Your task to perform on an android device: Search for flights from NYC to Sydney Image 0: 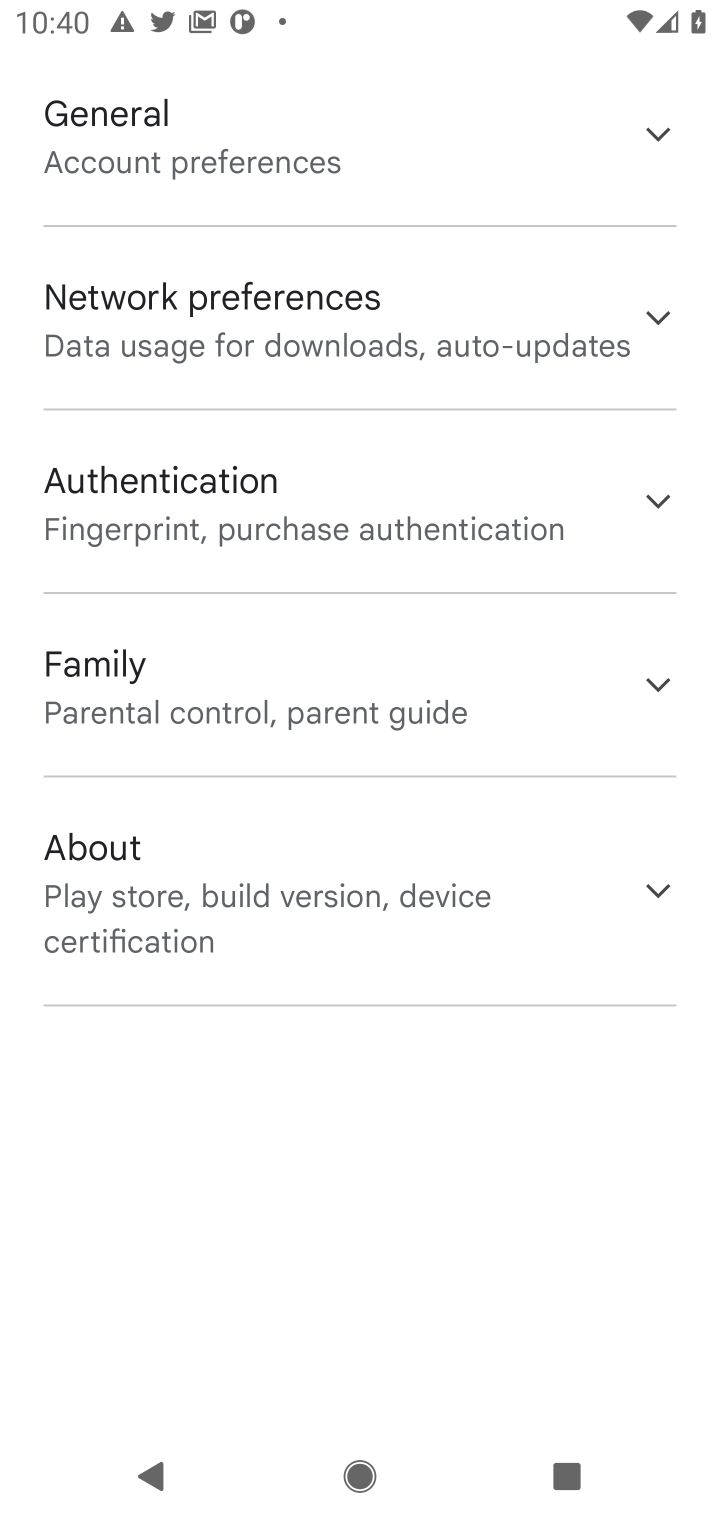
Step 0: press home button
Your task to perform on an android device: Search for flights from NYC to Sydney Image 1: 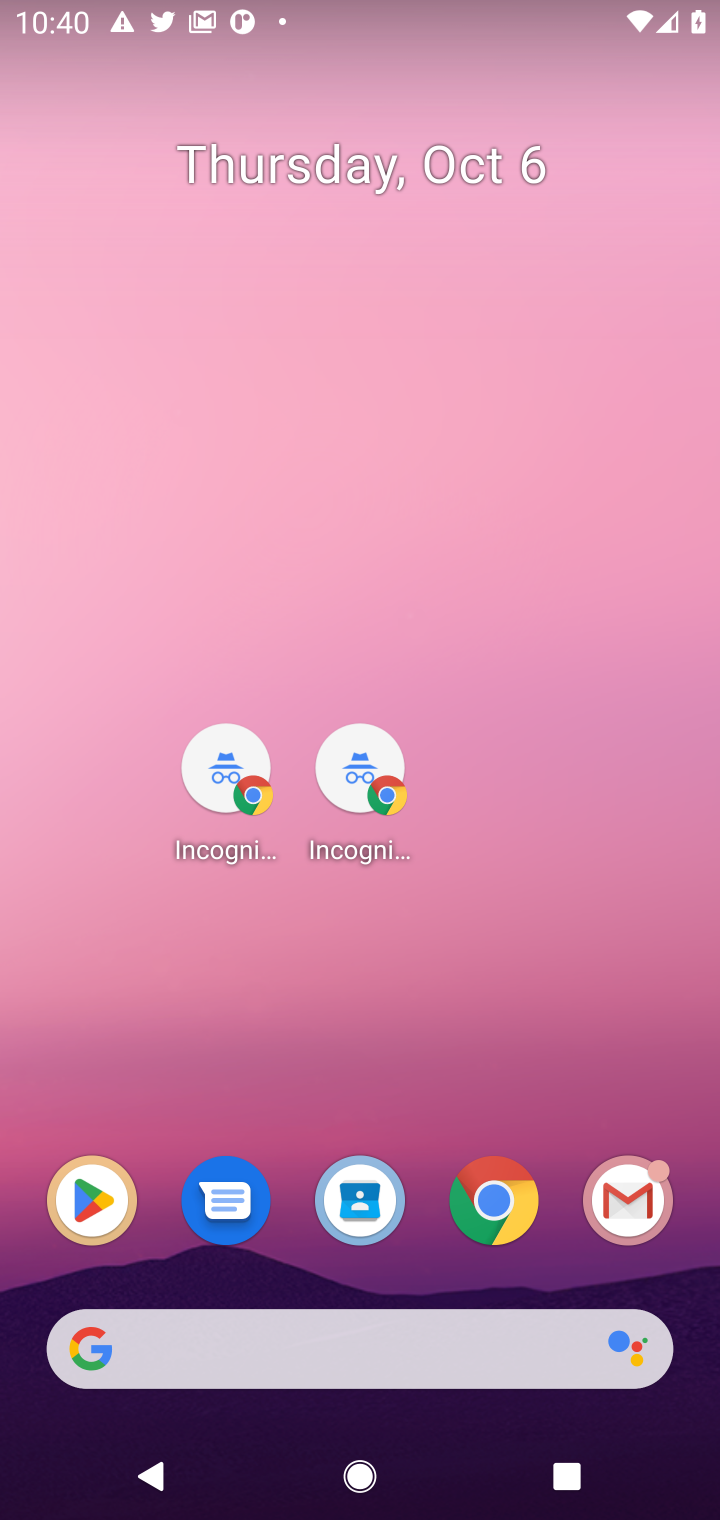
Step 1: click (492, 1195)
Your task to perform on an android device: Search for flights from NYC to Sydney Image 2: 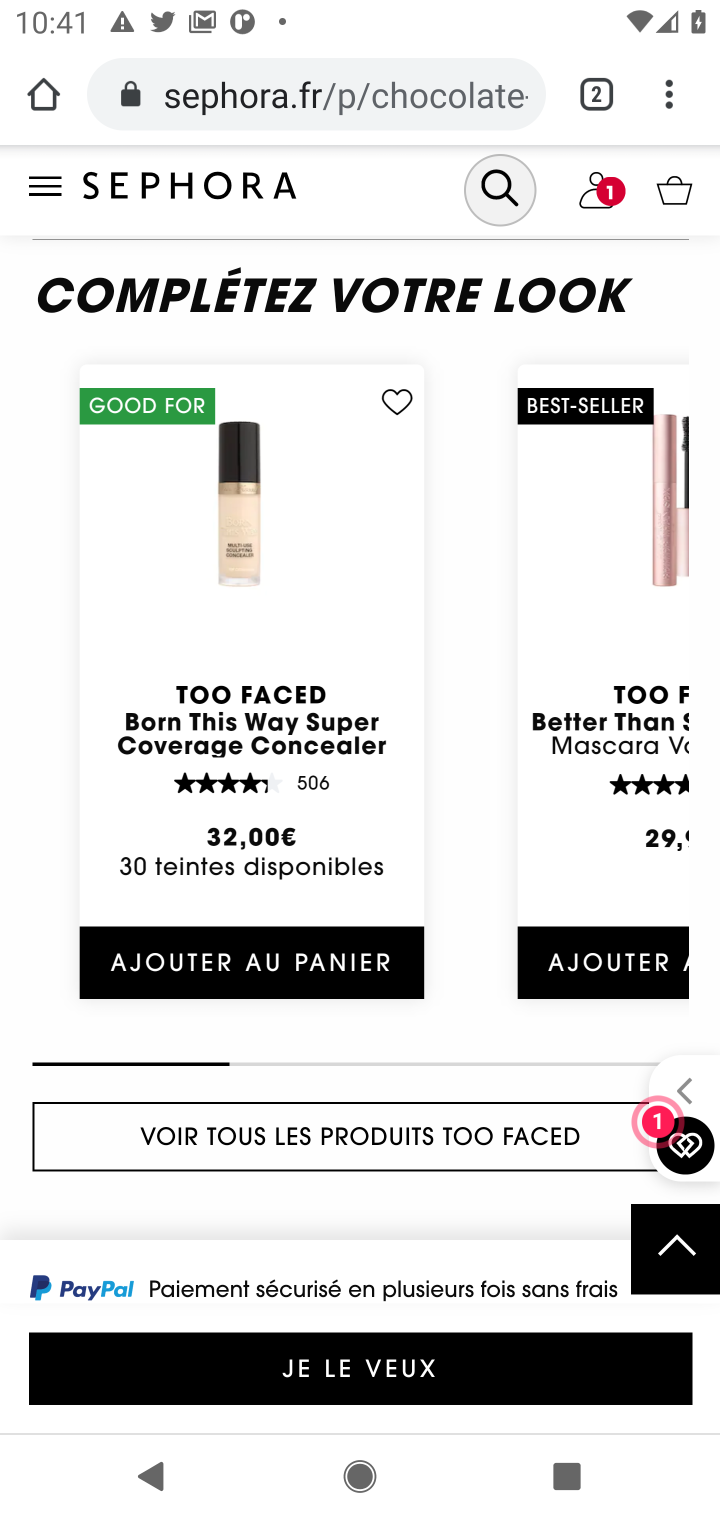
Step 2: click (385, 73)
Your task to perform on an android device: Search for flights from NYC to Sydney Image 3: 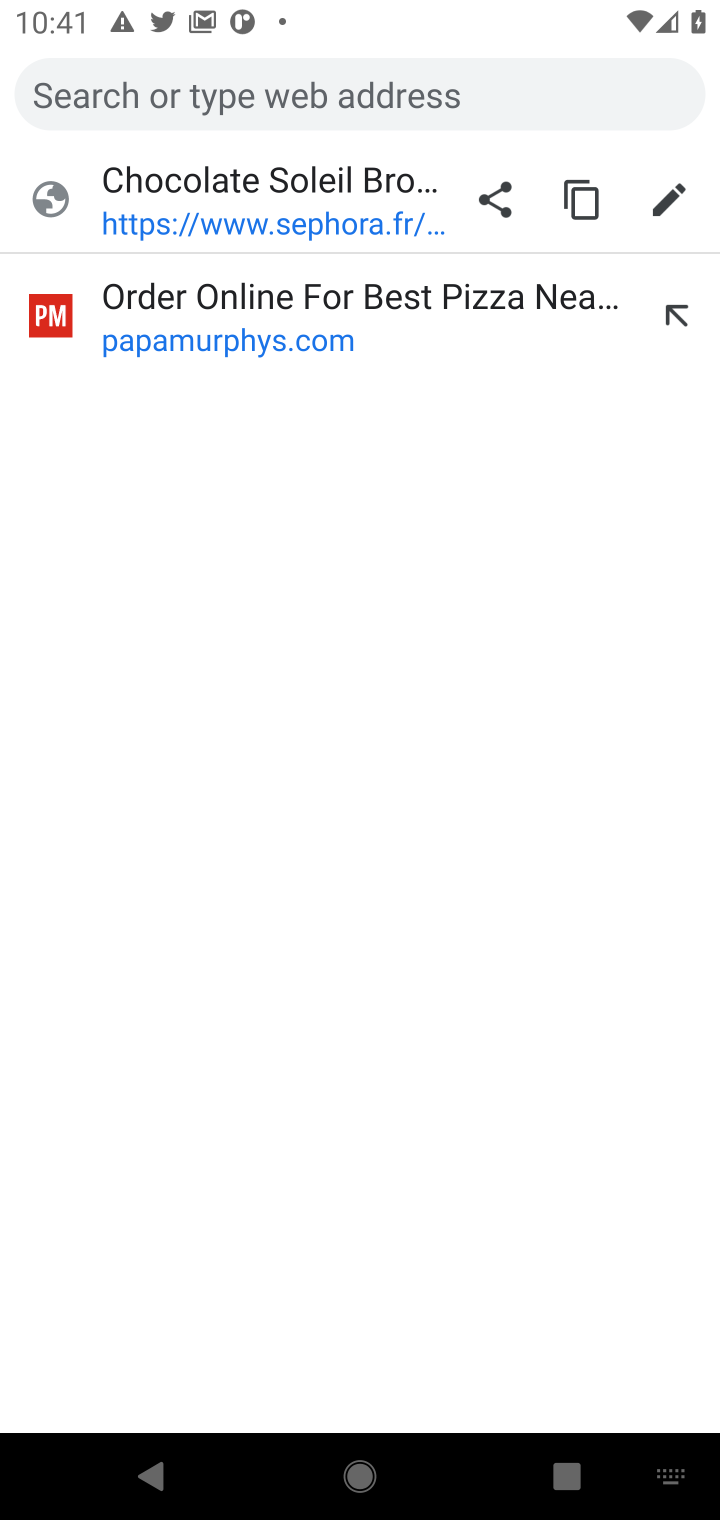
Step 3: type "flight form "
Your task to perform on an android device: Search for flights from NYC to Sydney Image 4: 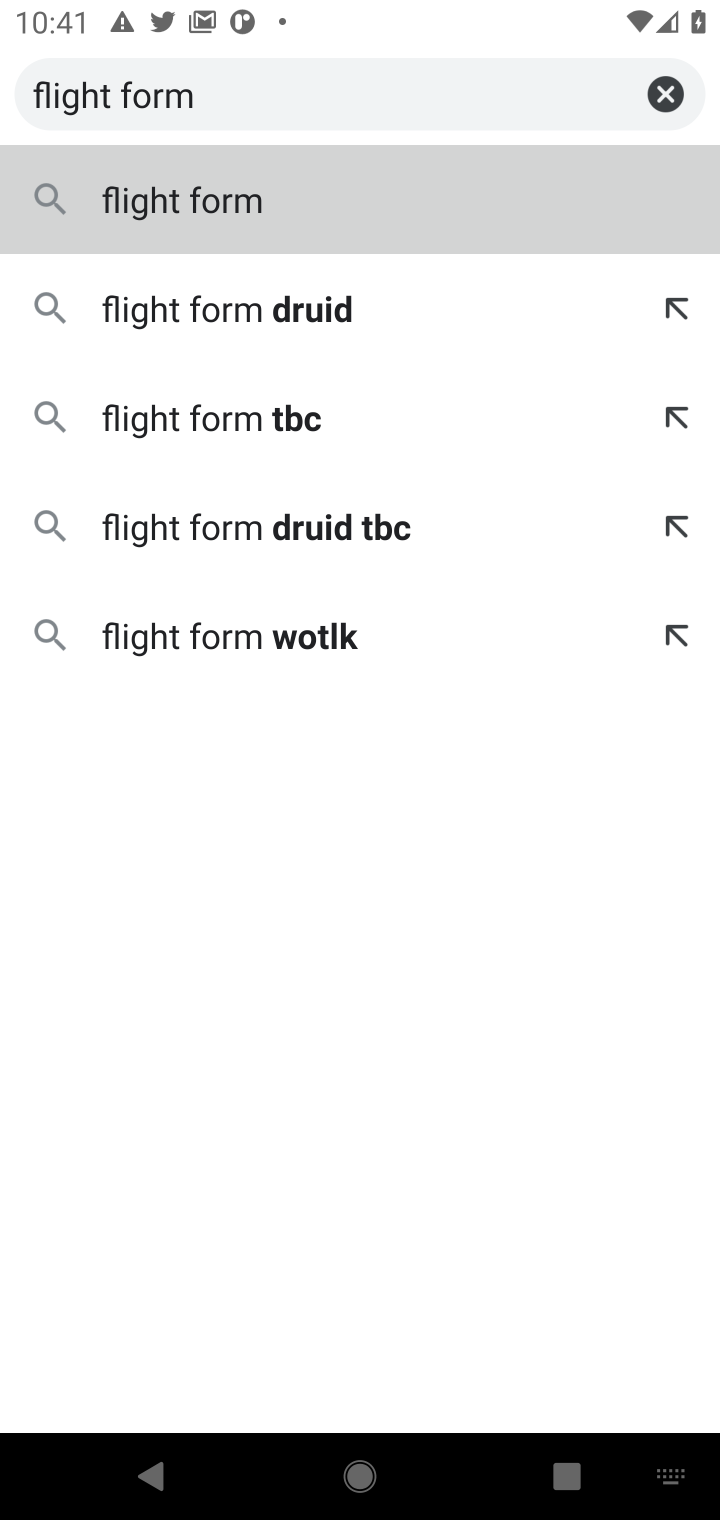
Step 4: type "flight from ny"
Your task to perform on an android device: Search for flights from NYC to Sydney Image 5: 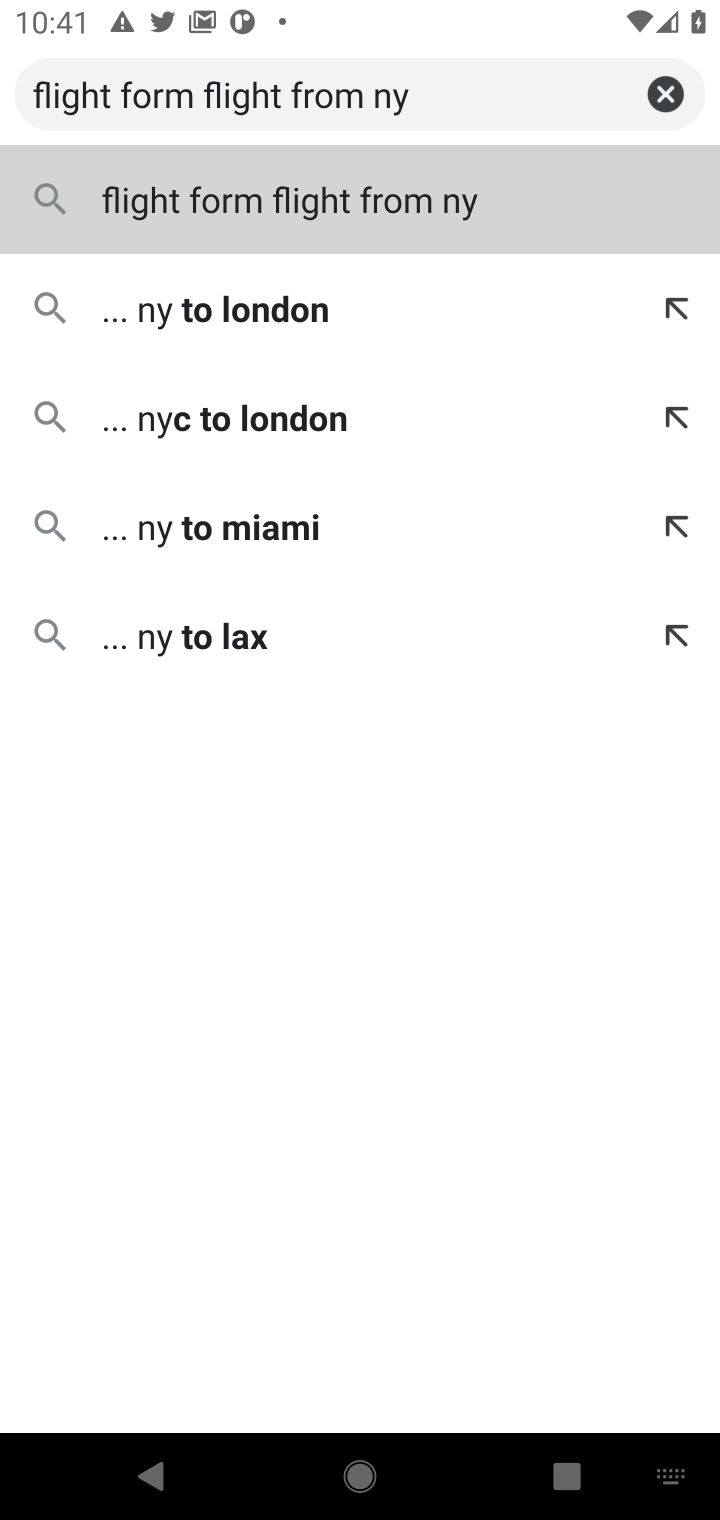
Step 5: type "flight from nyc to sydney"
Your task to perform on an android device: Search for flights from NYC to Sydney Image 6: 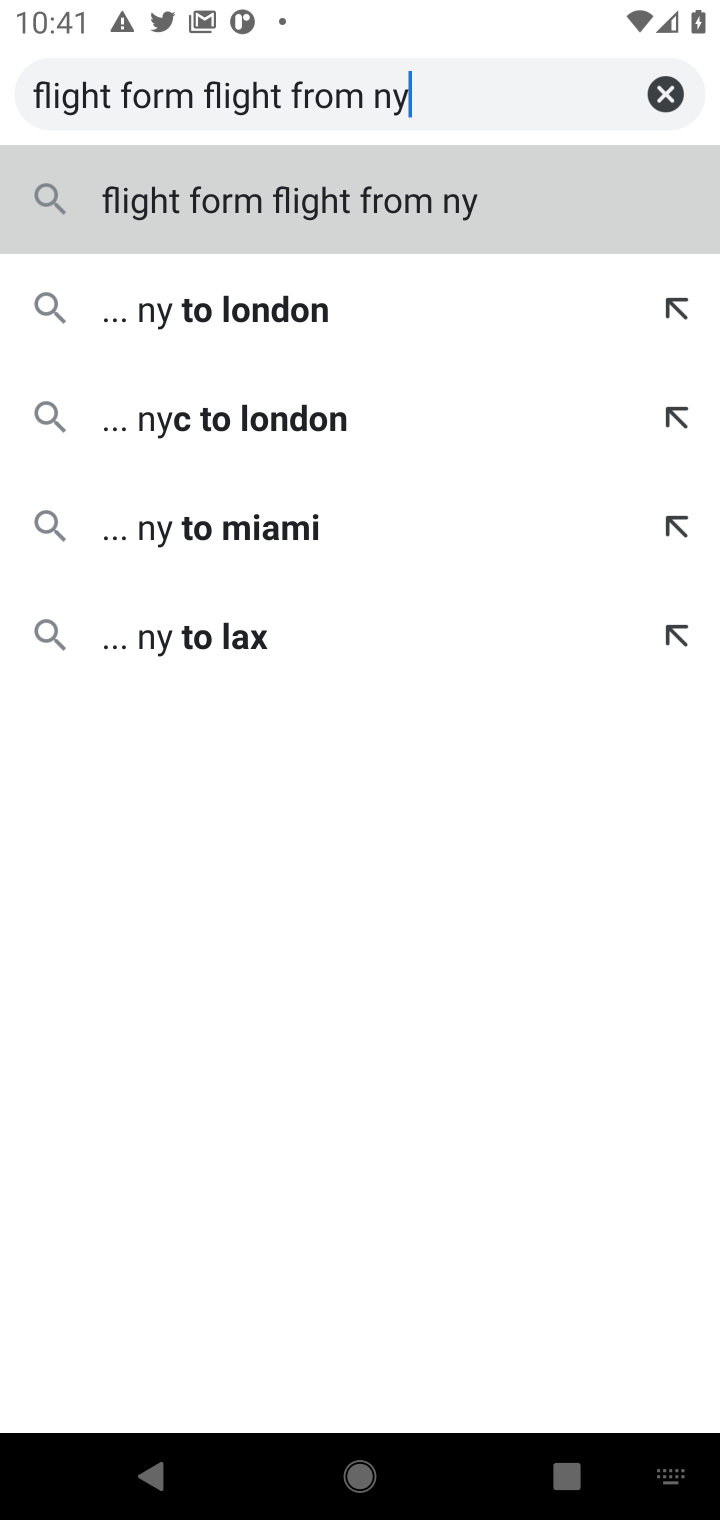
Step 6: click (665, 95)
Your task to perform on an android device: Search for flights from NYC to Sydney Image 7: 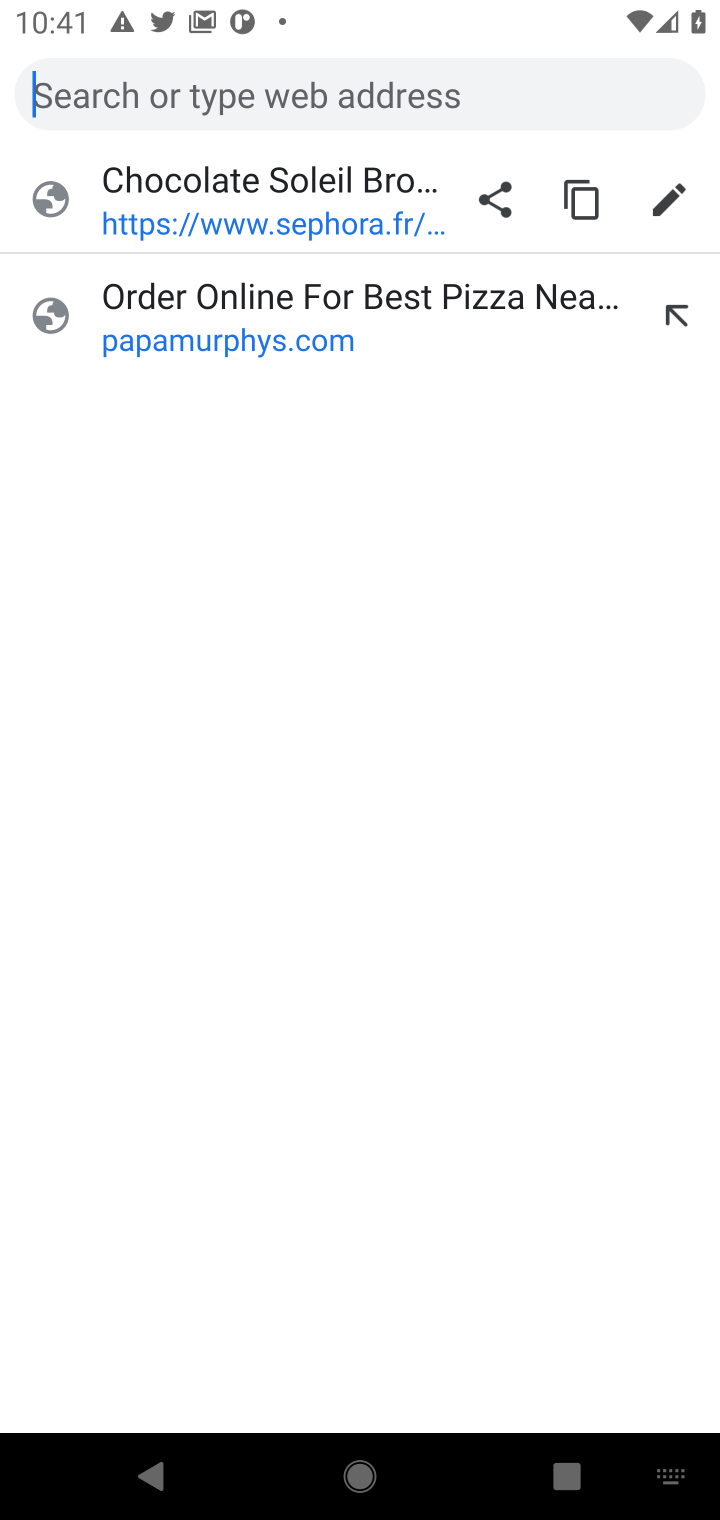
Step 7: click (663, 102)
Your task to perform on an android device: Search for flights from NYC to Sydney Image 8: 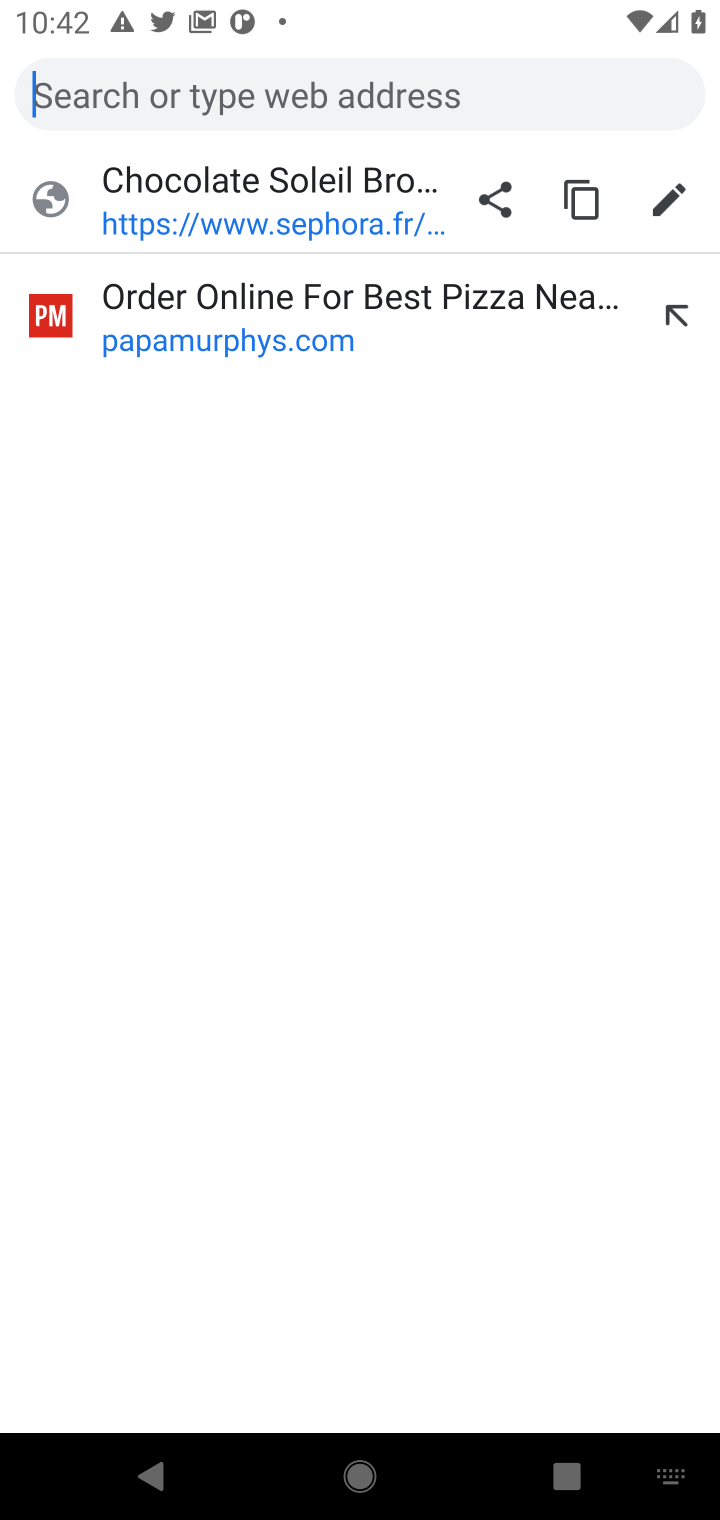
Step 8: type "flight from NYC to sydney "
Your task to perform on an android device: Search for flights from NYC to Sydney Image 9: 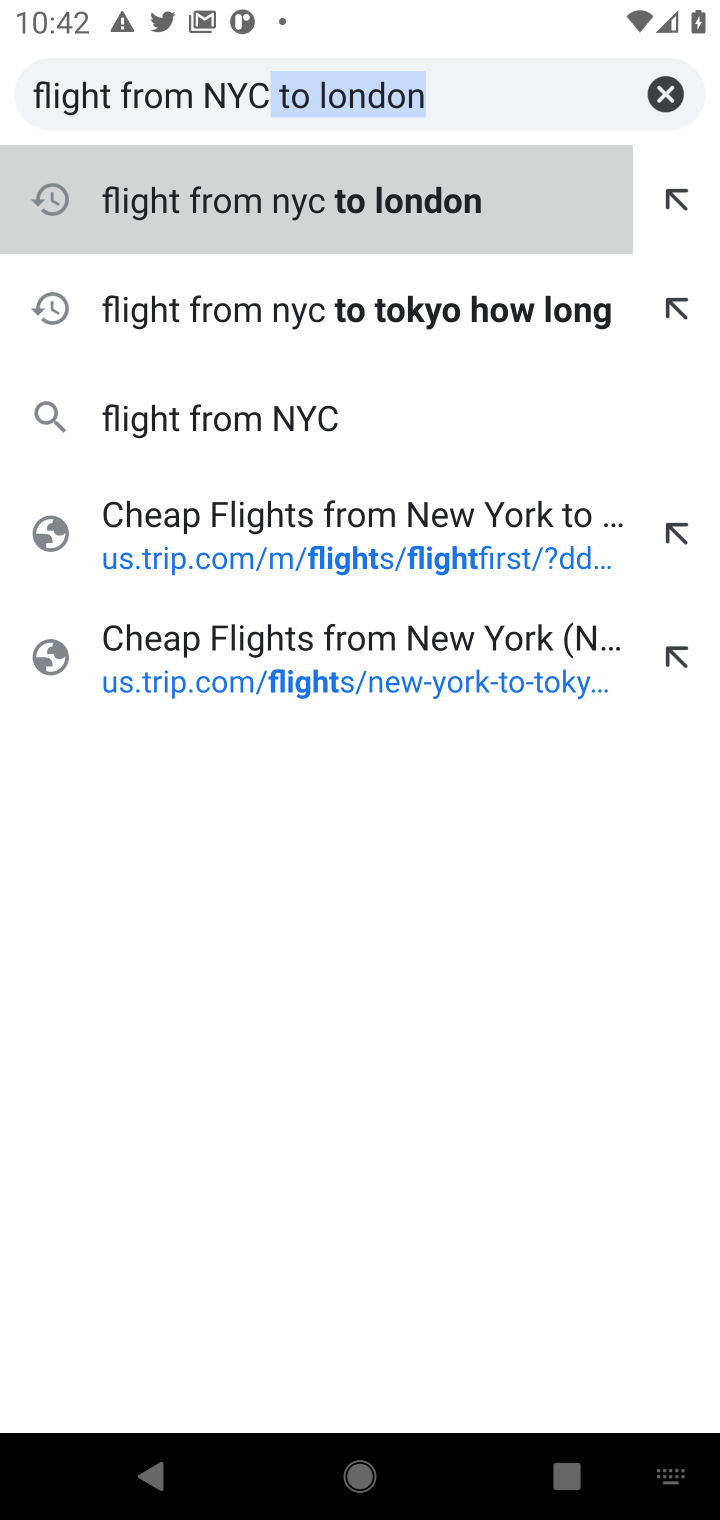
Step 9: type ""
Your task to perform on an android device: Search for flights from NYC to Sydney Image 10: 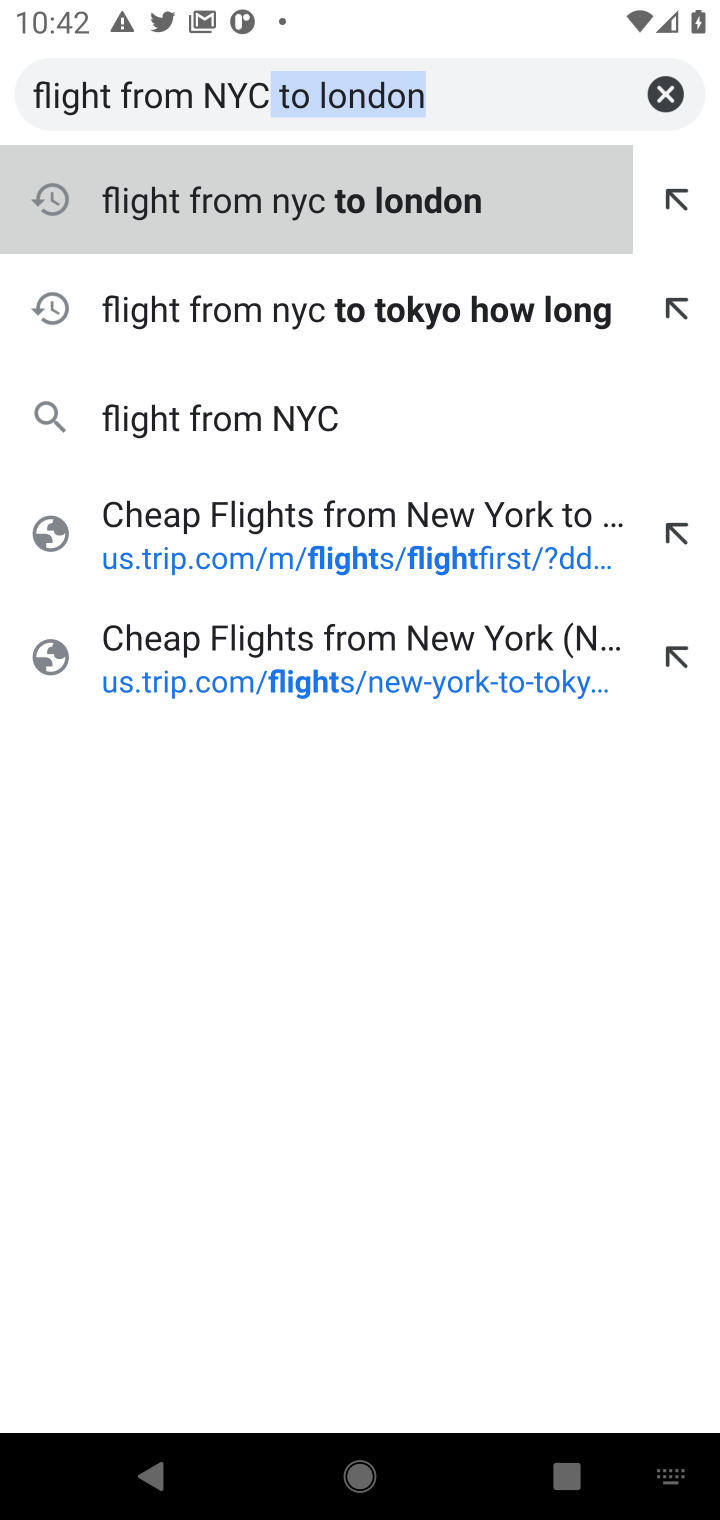
Step 10: click (324, 232)
Your task to perform on an android device: Search for flights from NYC to Sydney Image 11: 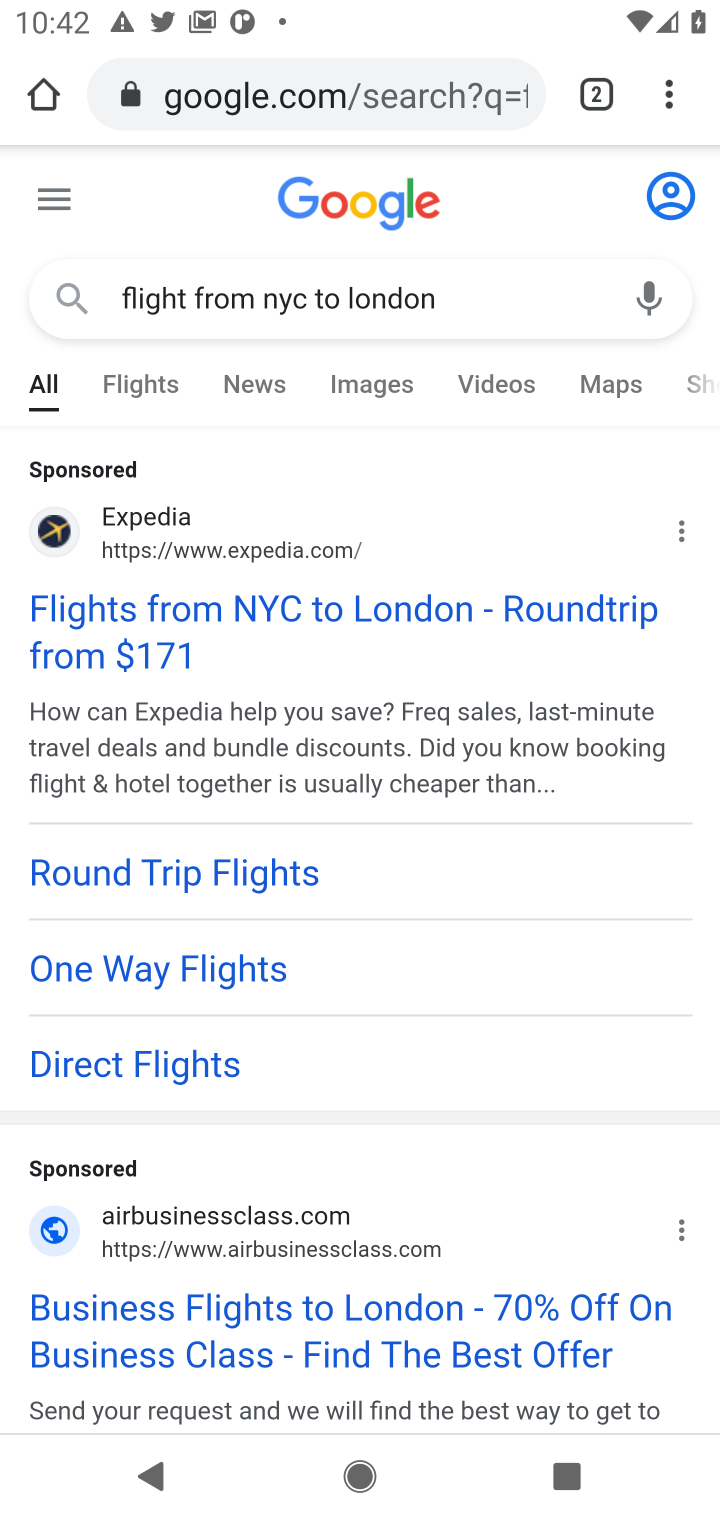
Step 11: click (103, 870)
Your task to perform on an android device: Search for flights from NYC to Sydney Image 12: 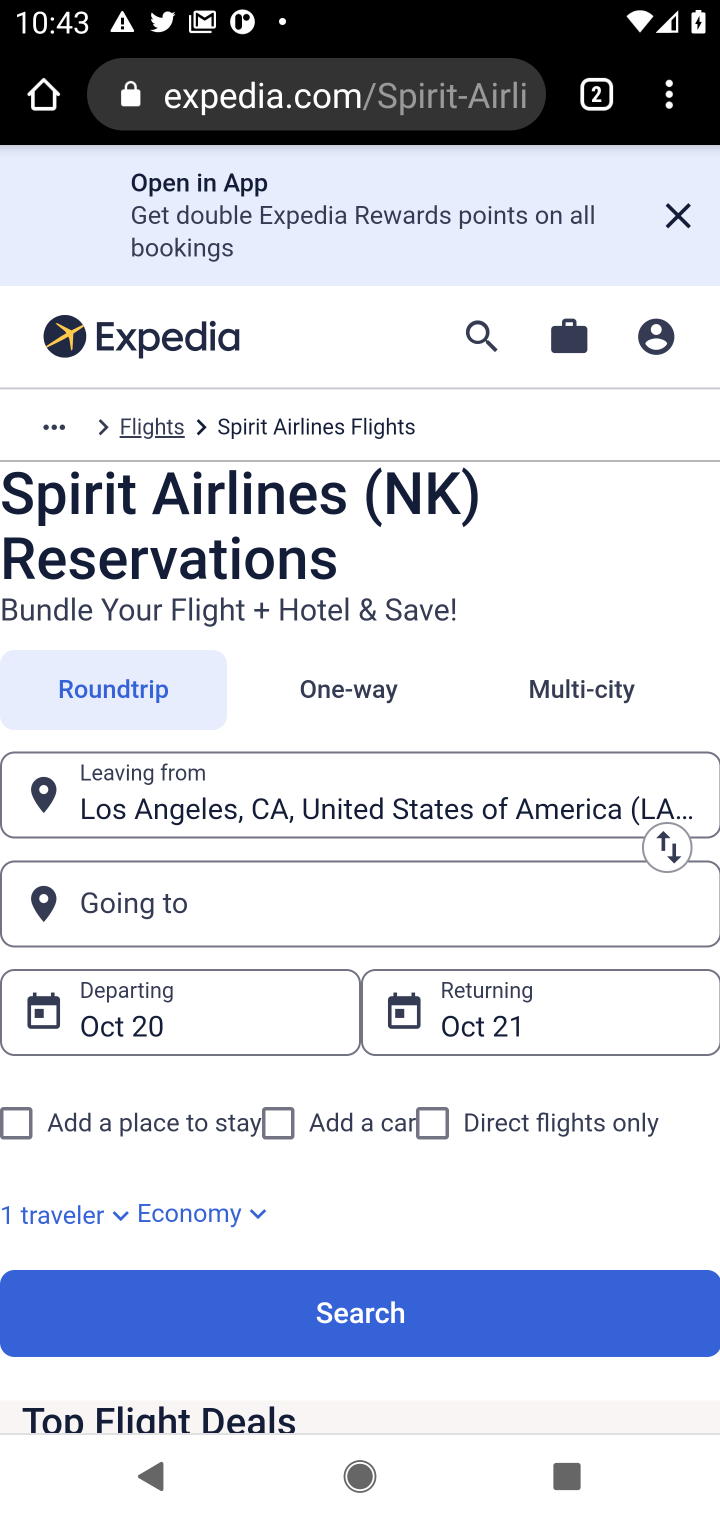
Step 12: click (269, 808)
Your task to perform on an android device: Search for flights from NYC to Sydney Image 13: 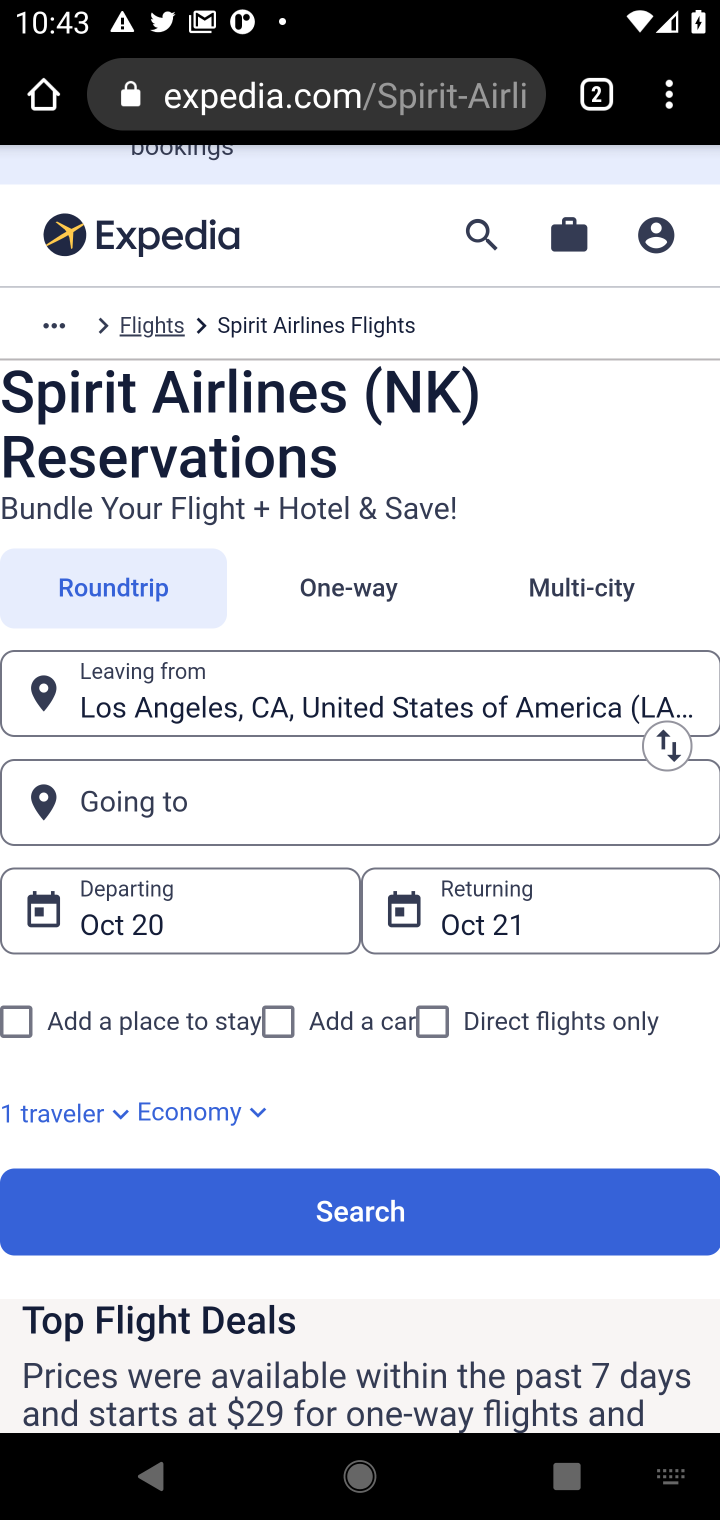
Step 13: click (485, 709)
Your task to perform on an android device: Search for flights from NYC to Sydney Image 14: 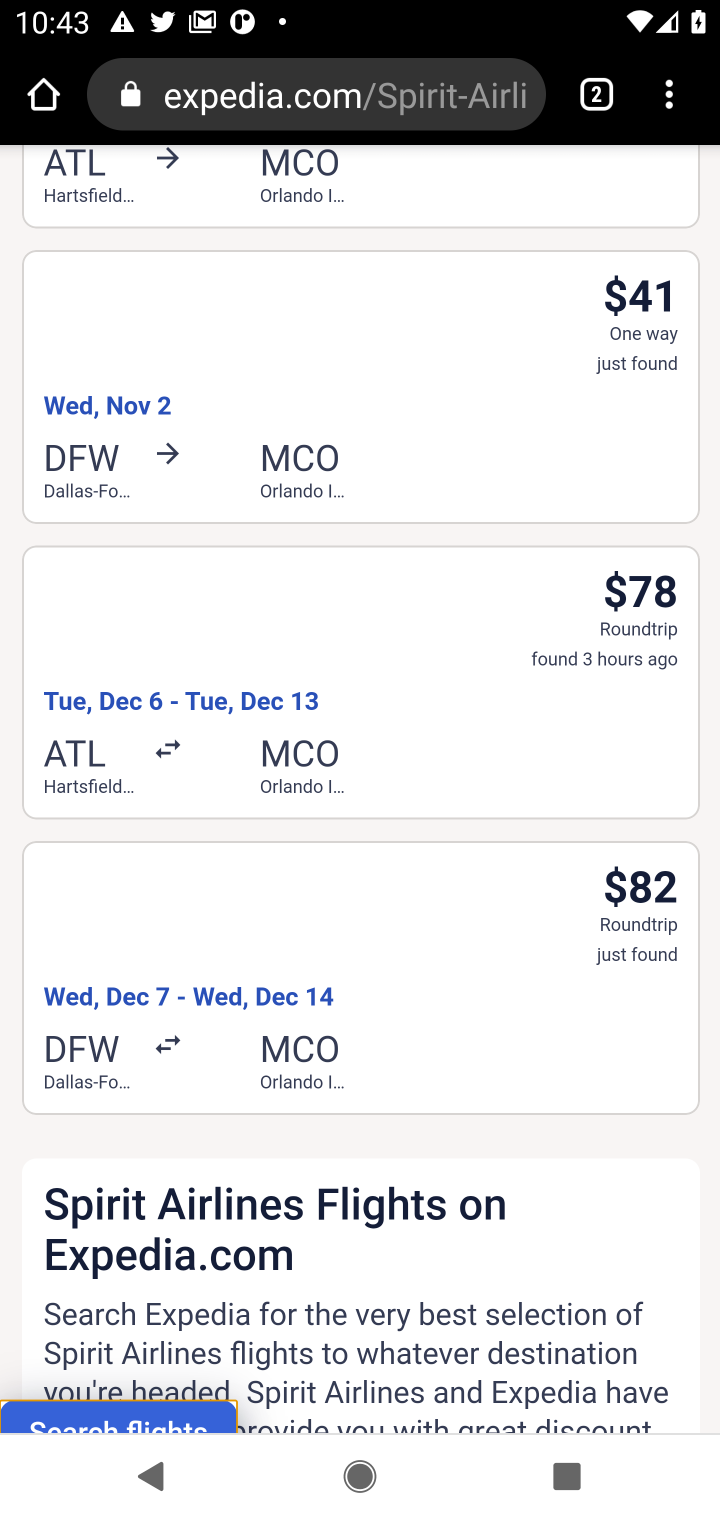
Step 14: drag from (441, 1067) to (529, 452)
Your task to perform on an android device: Search for flights from NYC to Sydney Image 15: 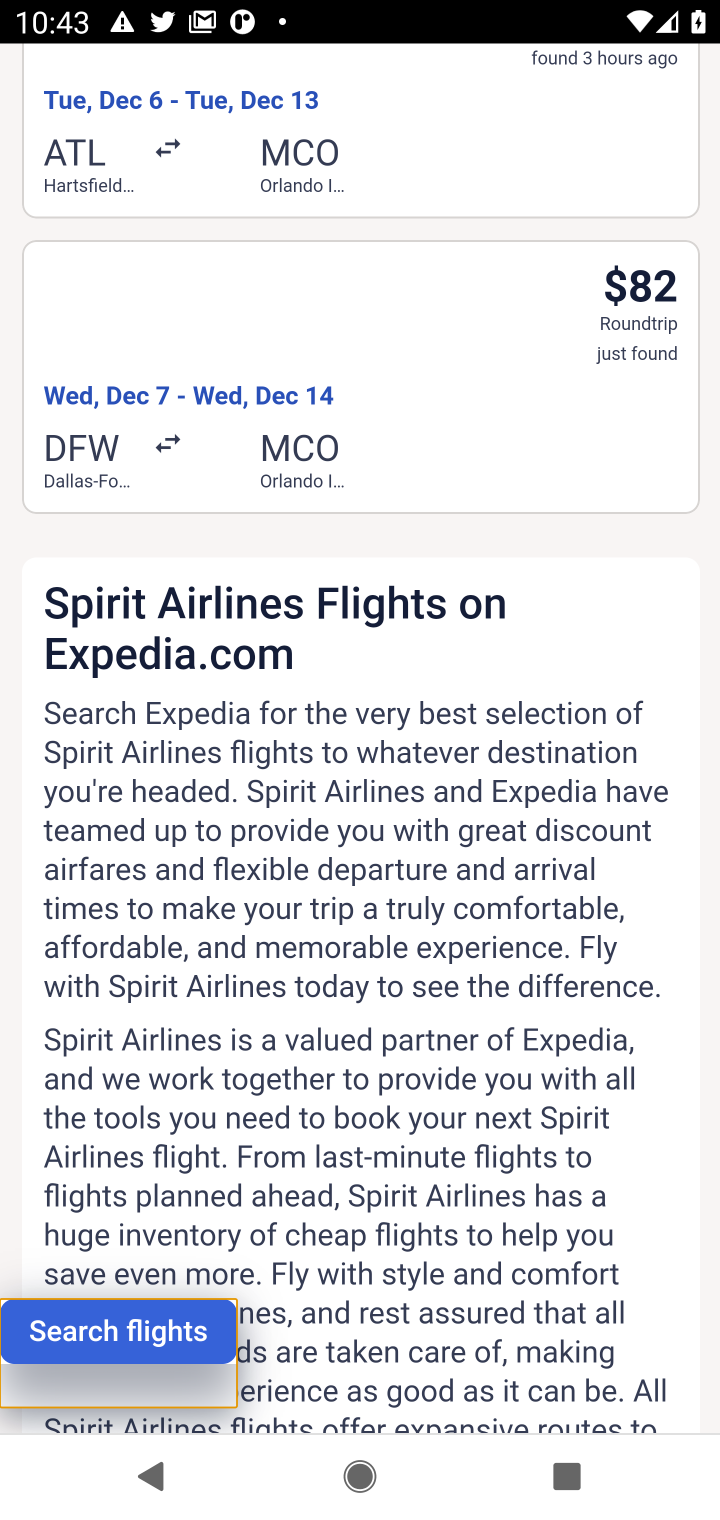
Step 15: drag from (466, 401) to (501, 1137)
Your task to perform on an android device: Search for flights from NYC to Sydney Image 16: 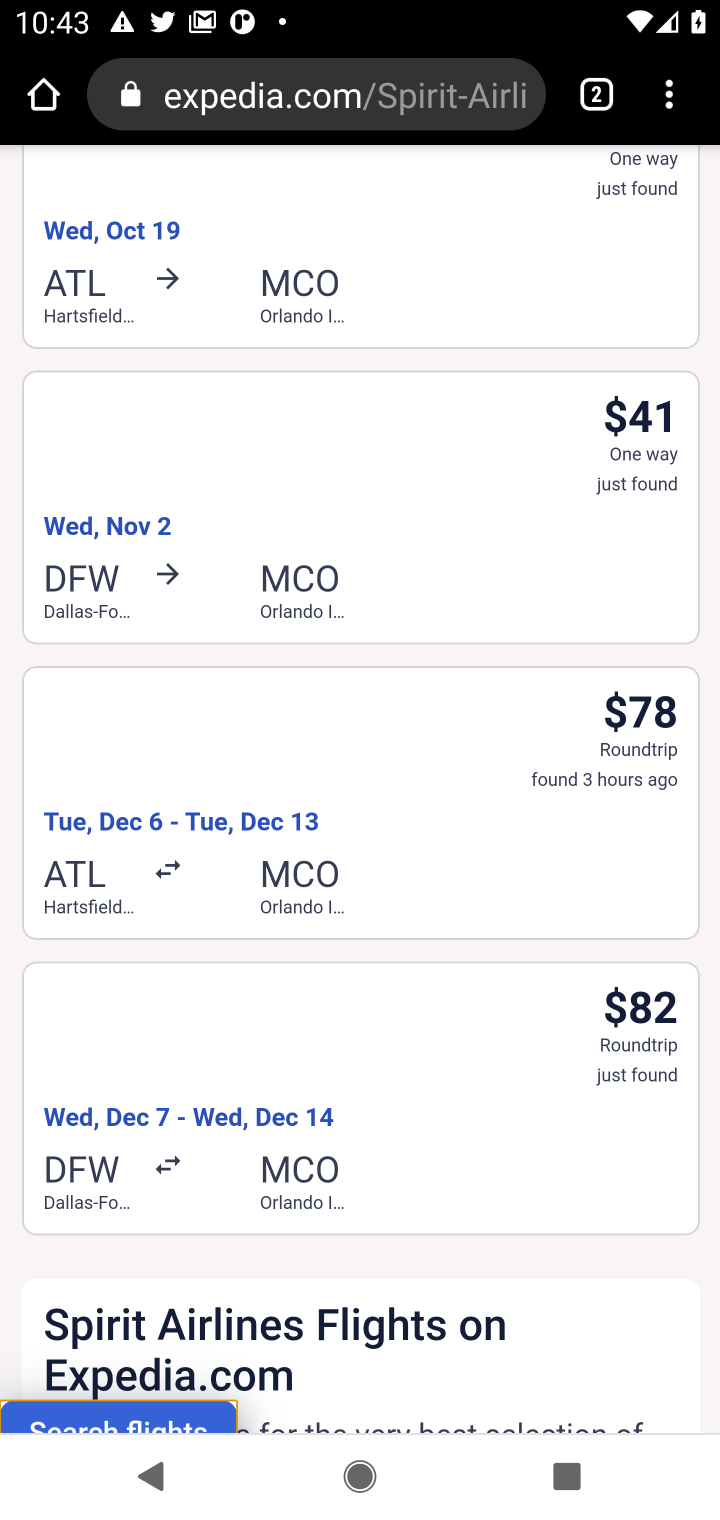
Step 16: click (117, 1424)
Your task to perform on an android device: Search for flights from NYC to Sydney Image 17: 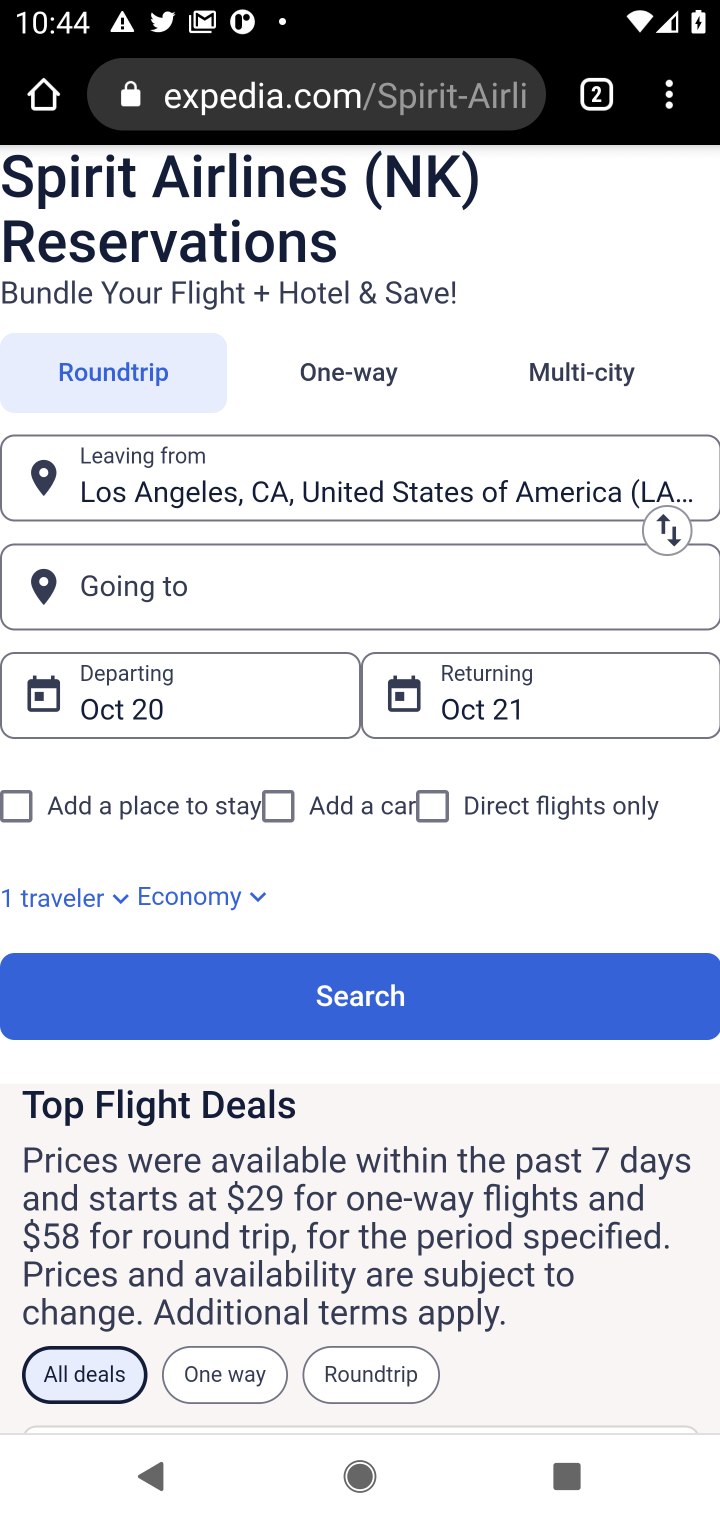
Step 17: click (274, 490)
Your task to perform on an android device: Search for flights from NYC to Sydney Image 18: 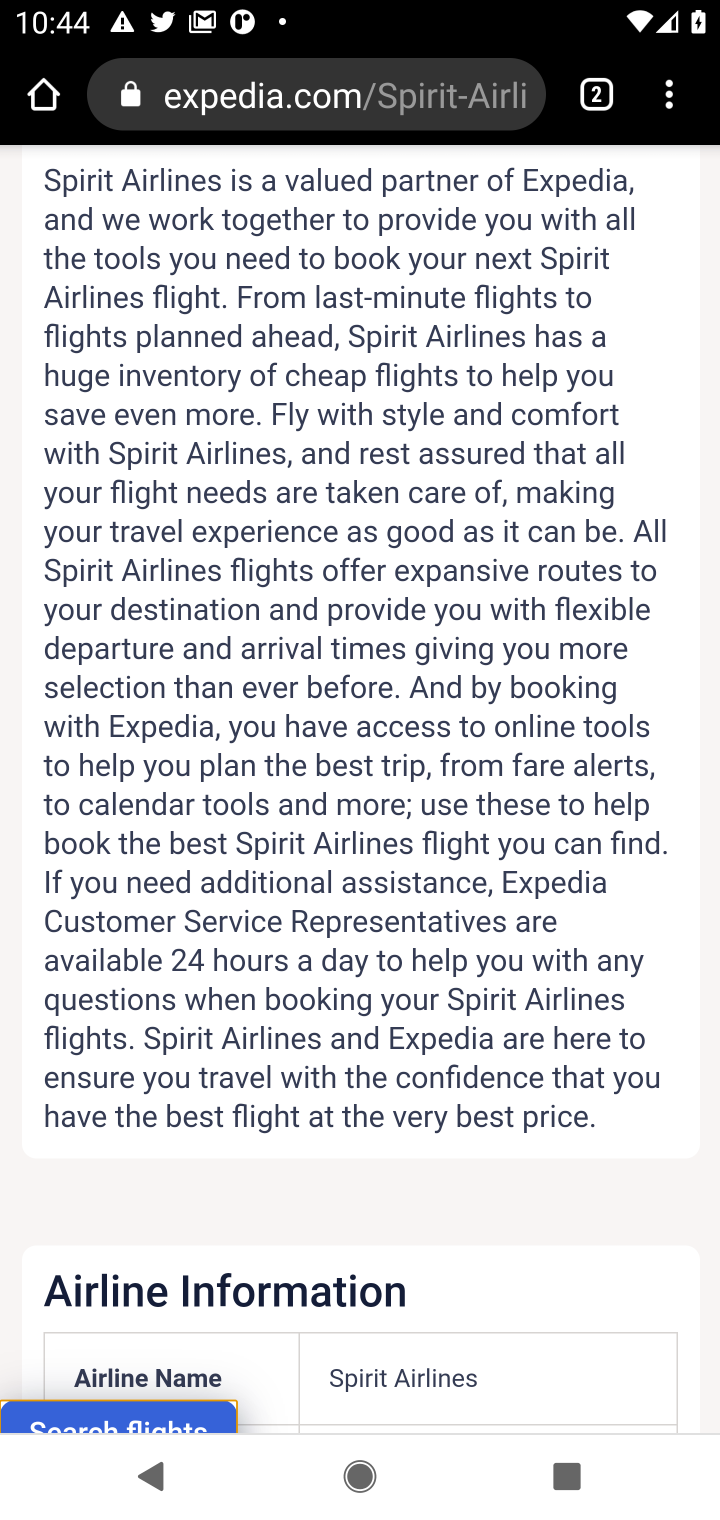
Step 18: drag from (428, 1097) to (426, 459)
Your task to perform on an android device: Search for flights from NYC to Sydney Image 19: 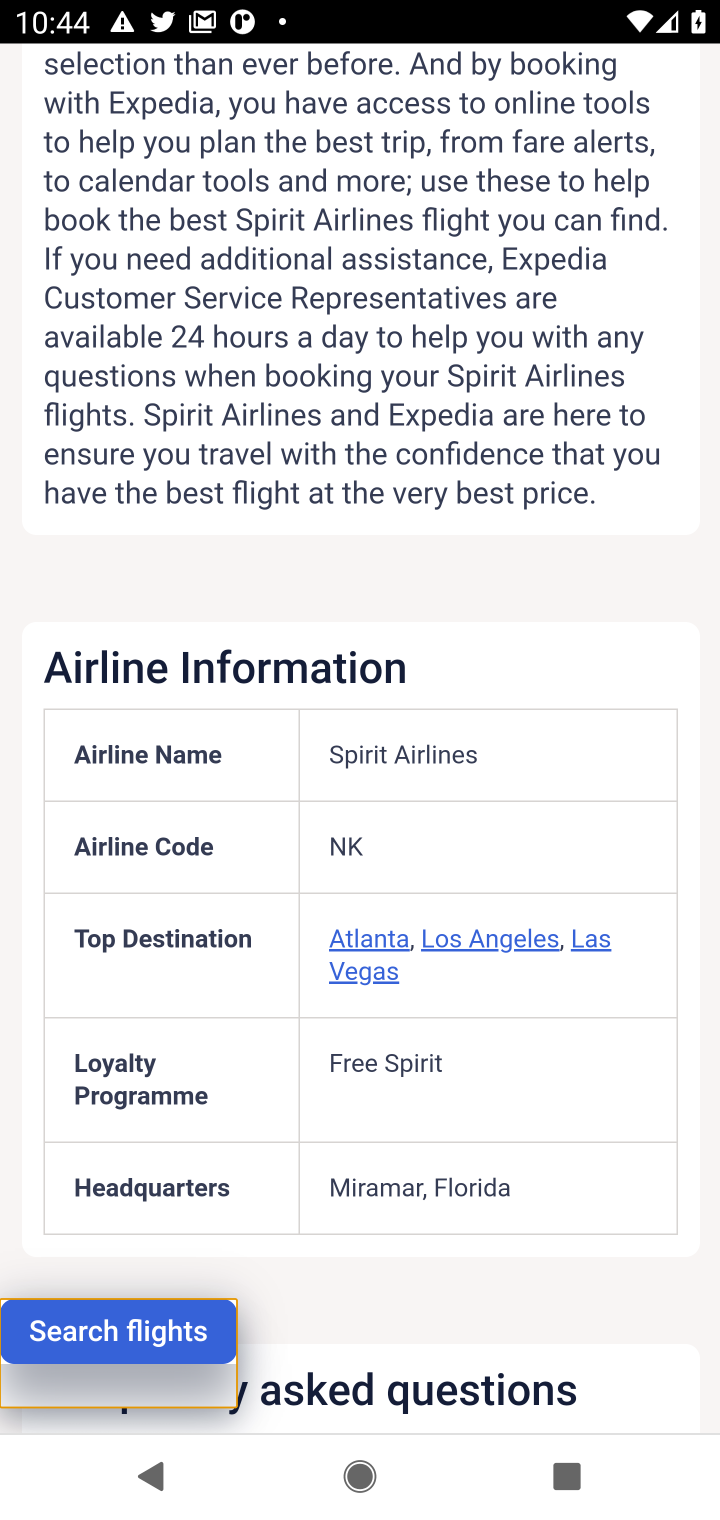
Step 19: drag from (393, 1066) to (404, 621)
Your task to perform on an android device: Search for flights from NYC to Sydney Image 20: 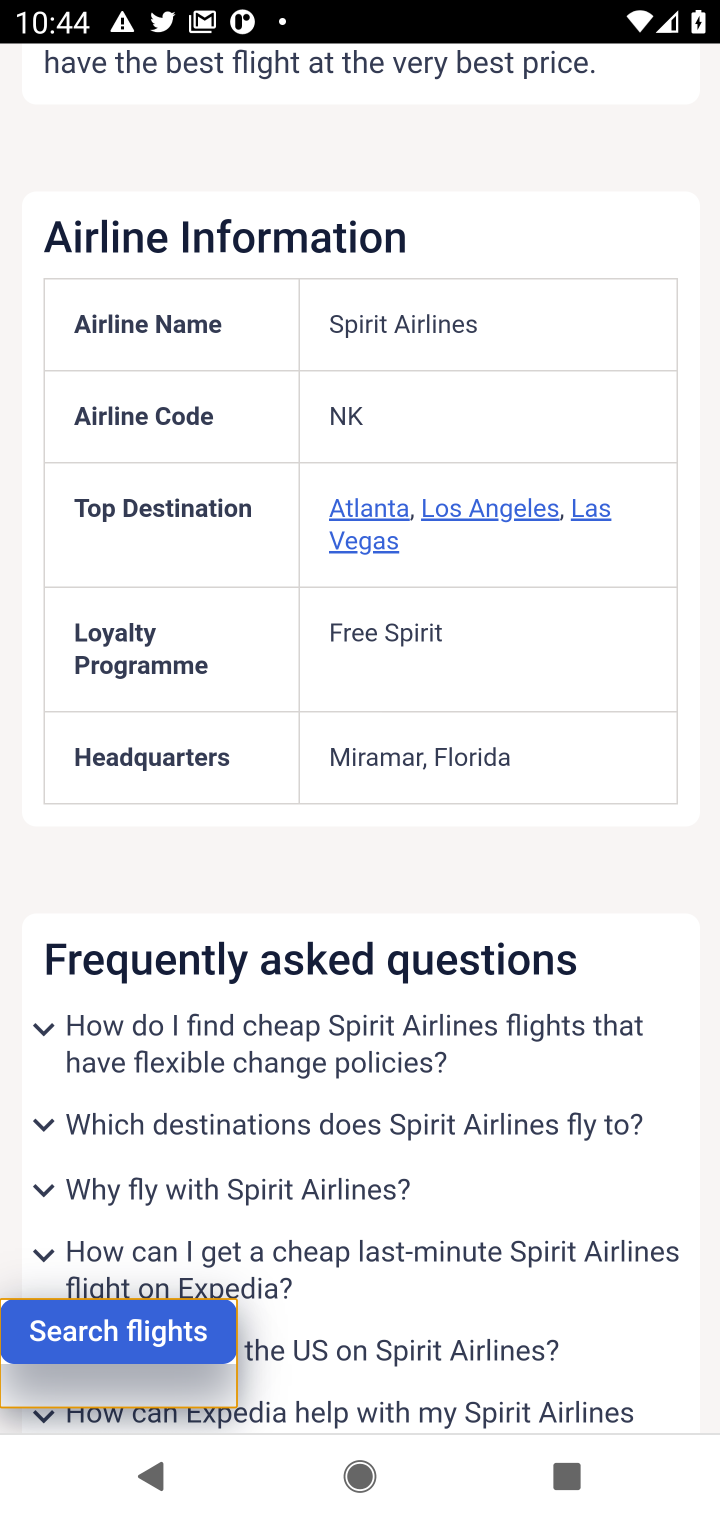
Step 20: click (91, 1341)
Your task to perform on an android device: Search for flights from NYC to Sydney Image 21: 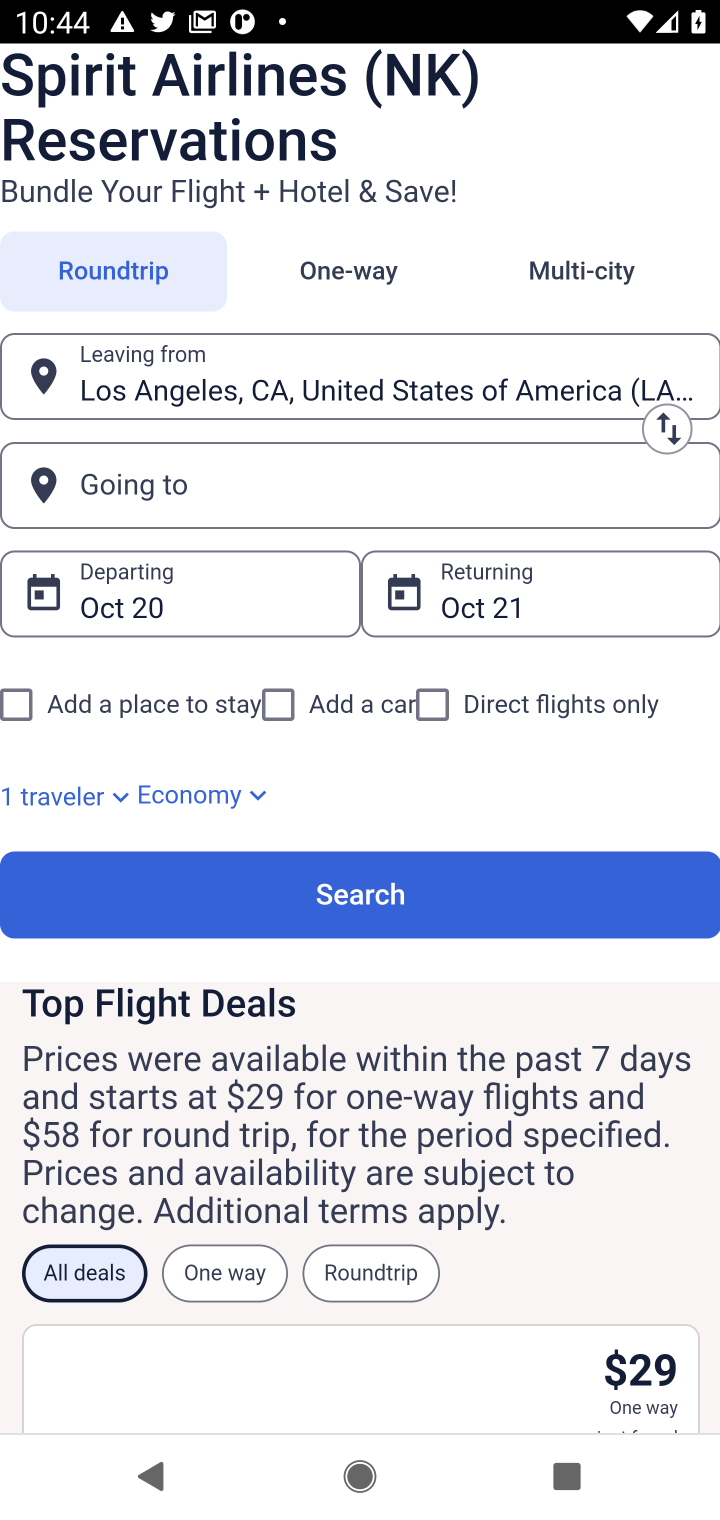
Step 21: click (133, 490)
Your task to perform on an android device: Search for flights from NYC to Sydney Image 22: 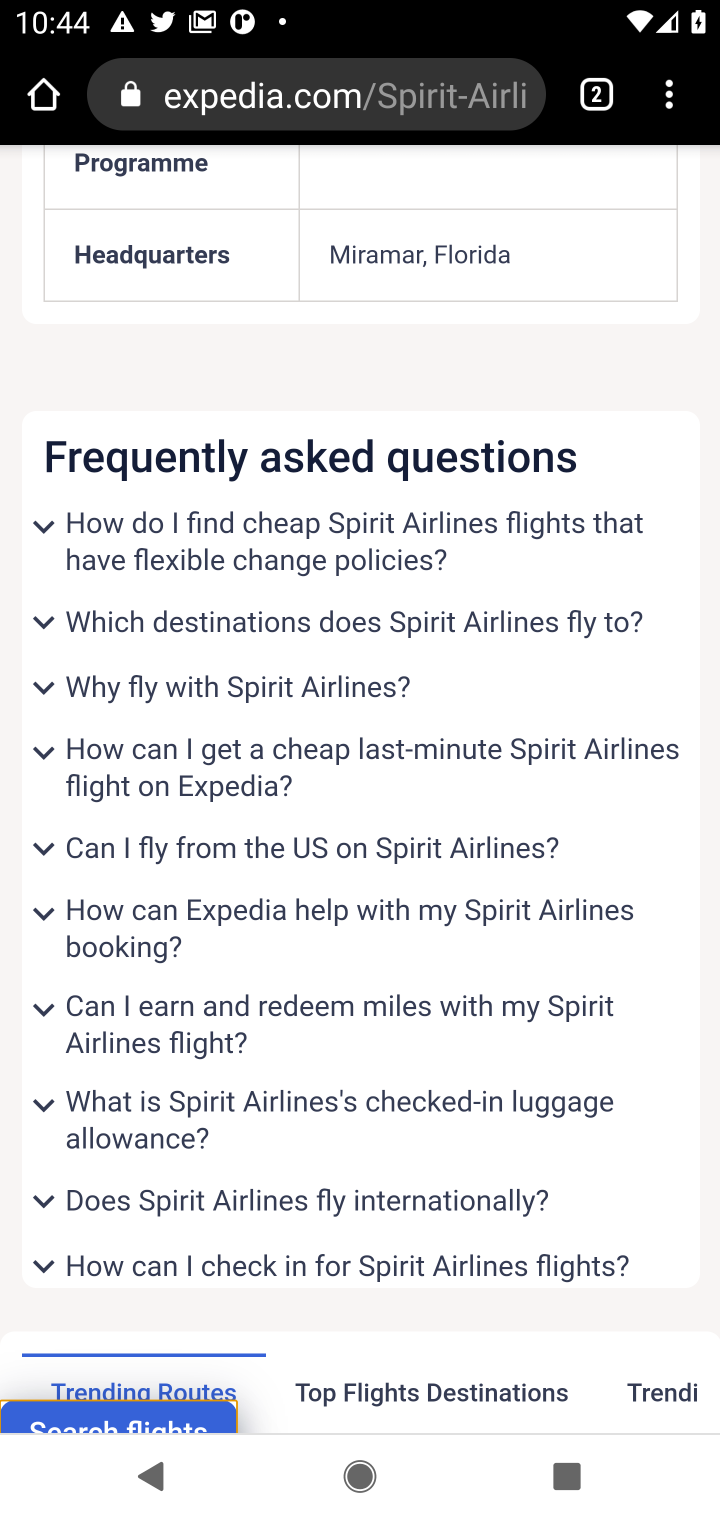
Step 22: drag from (415, 396) to (473, 1268)
Your task to perform on an android device: Search for flights from NYC to Sydney Image 23: 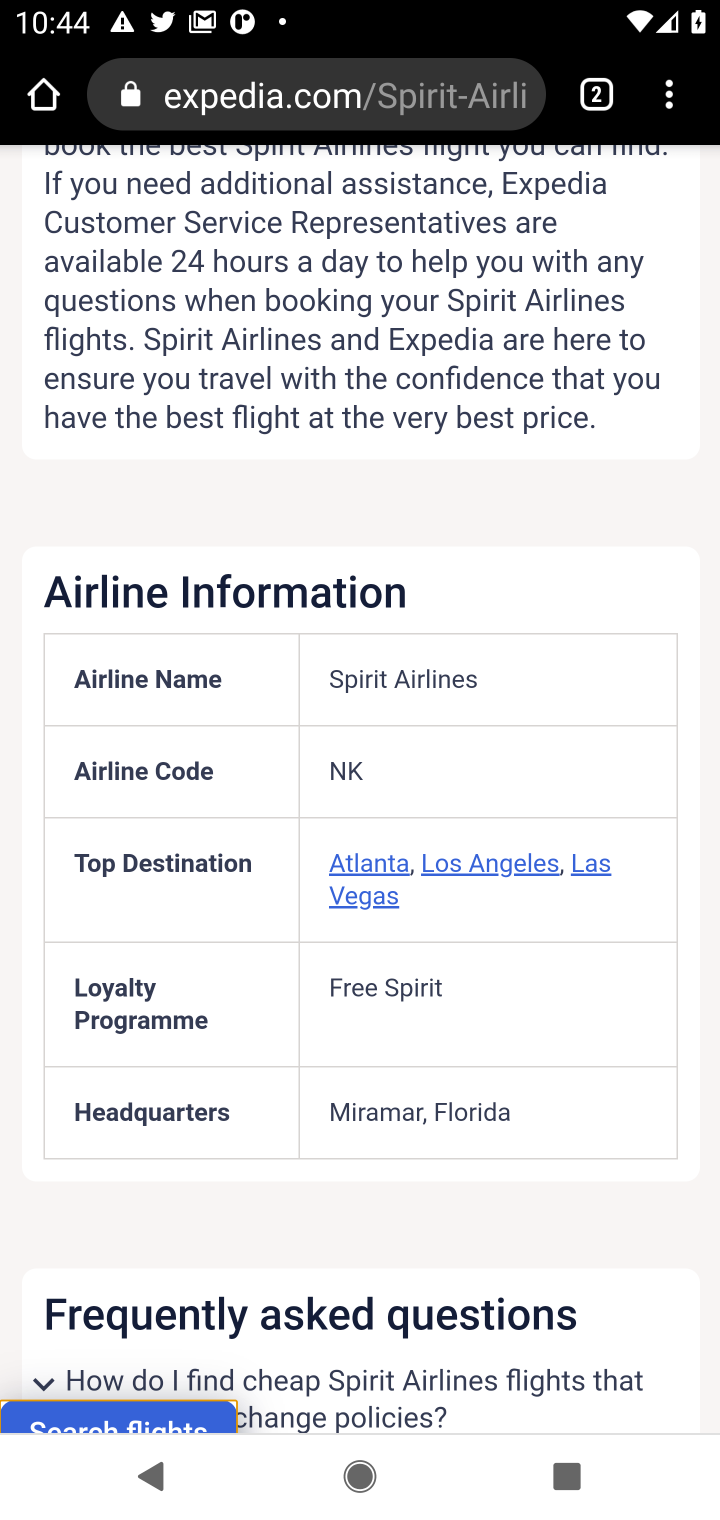
Step 23: drag from (249, 746) to (318, 1395)
Your task to perform on an android device: Search for flights from NYC to Sydney Image 24: 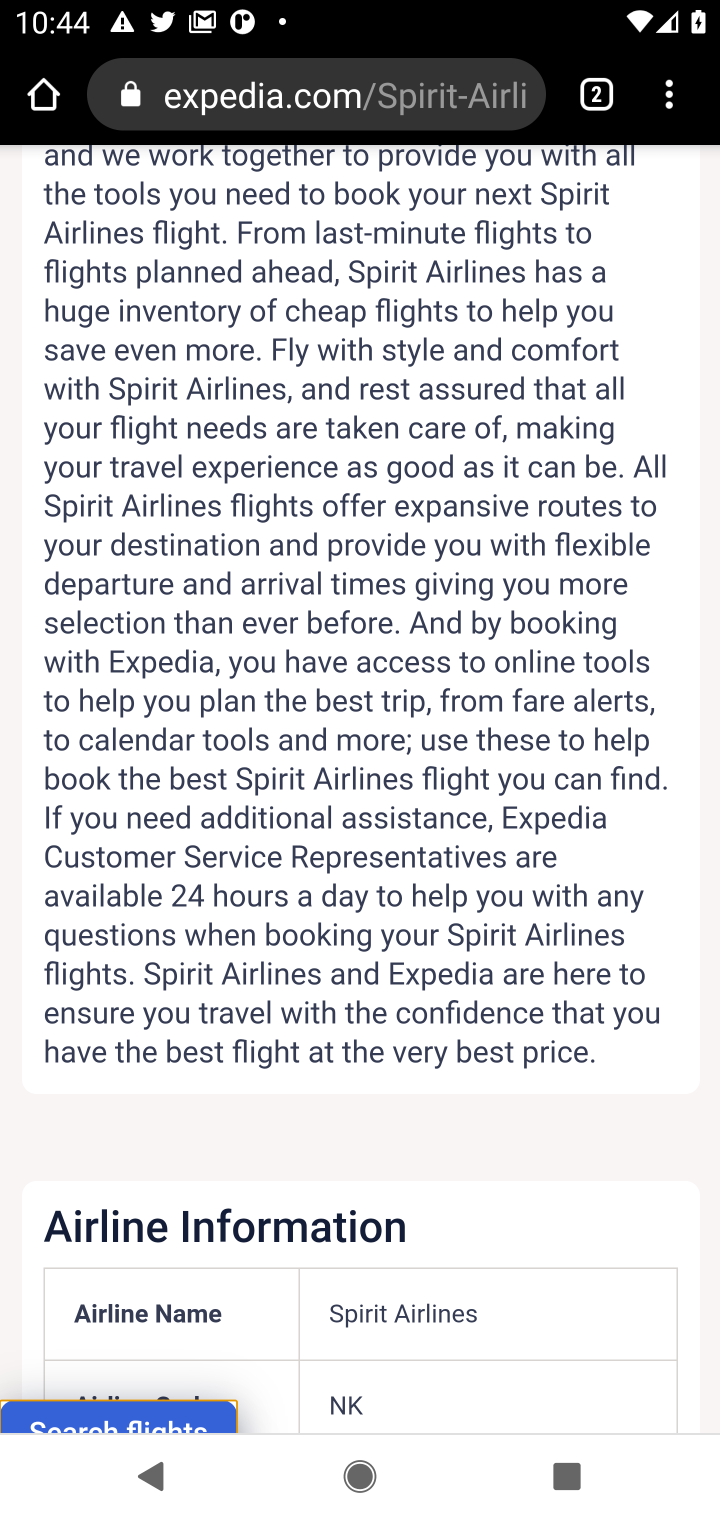
Step 24: drag from (199, 617) to (299, 1416)
Your task to perform on an android device: Search for flights from NYC to Sydney Image 25: 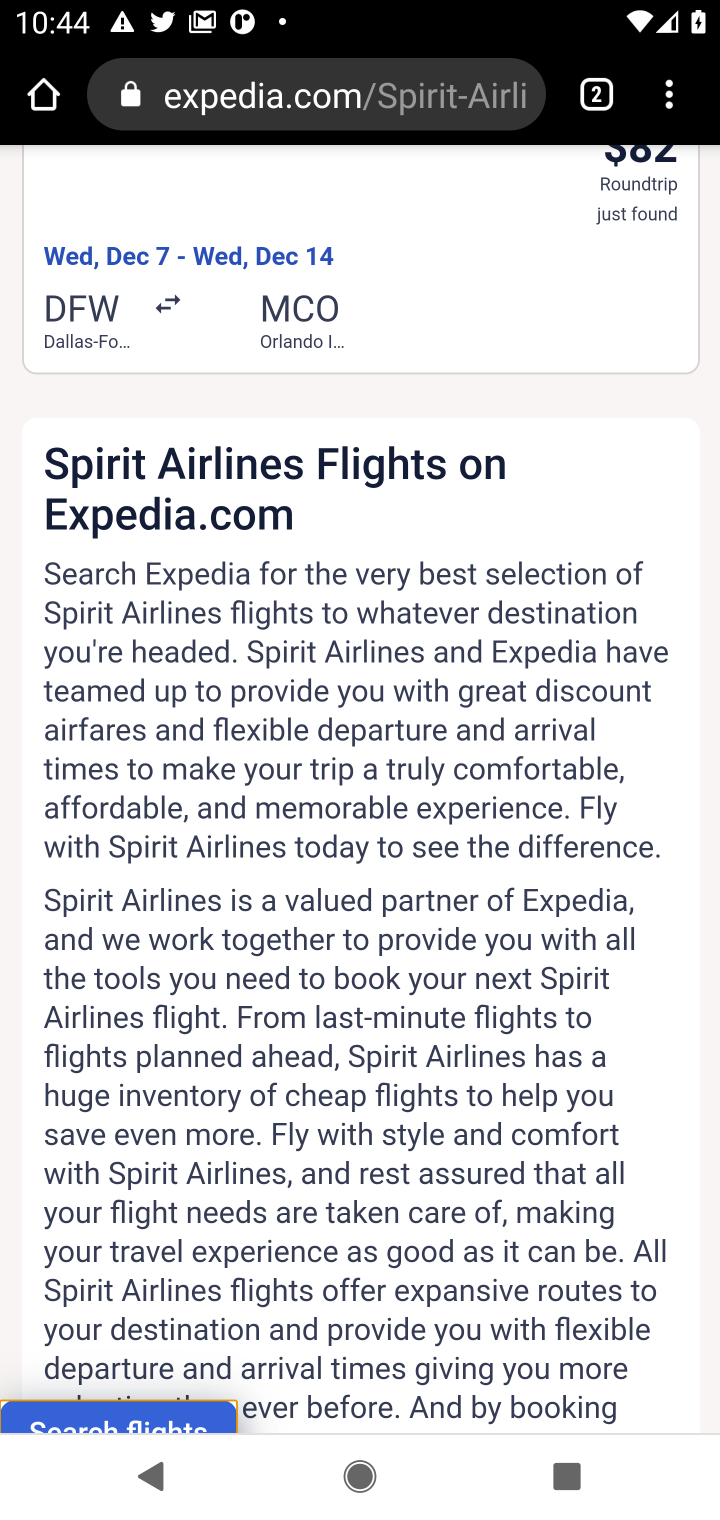
Step 25: drag from (153, 677) to (285, 1318)
Your task to perform on an android device: Search for flights from NYC to Sydney Image 26: 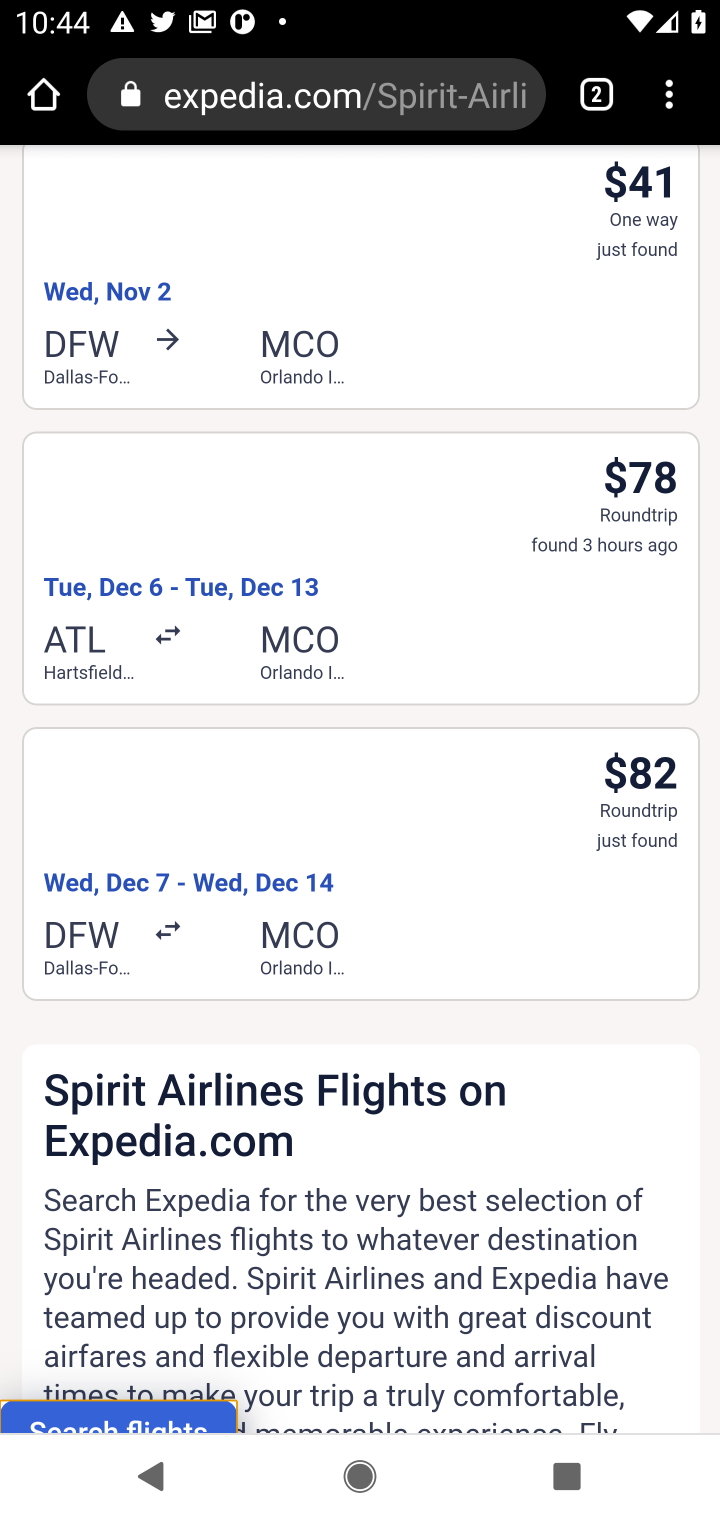
Step 26: drag from (380, 518) to (382, 1314)
Your task to perform on an android device: Search for flights from NYC to Sydney Image 27: 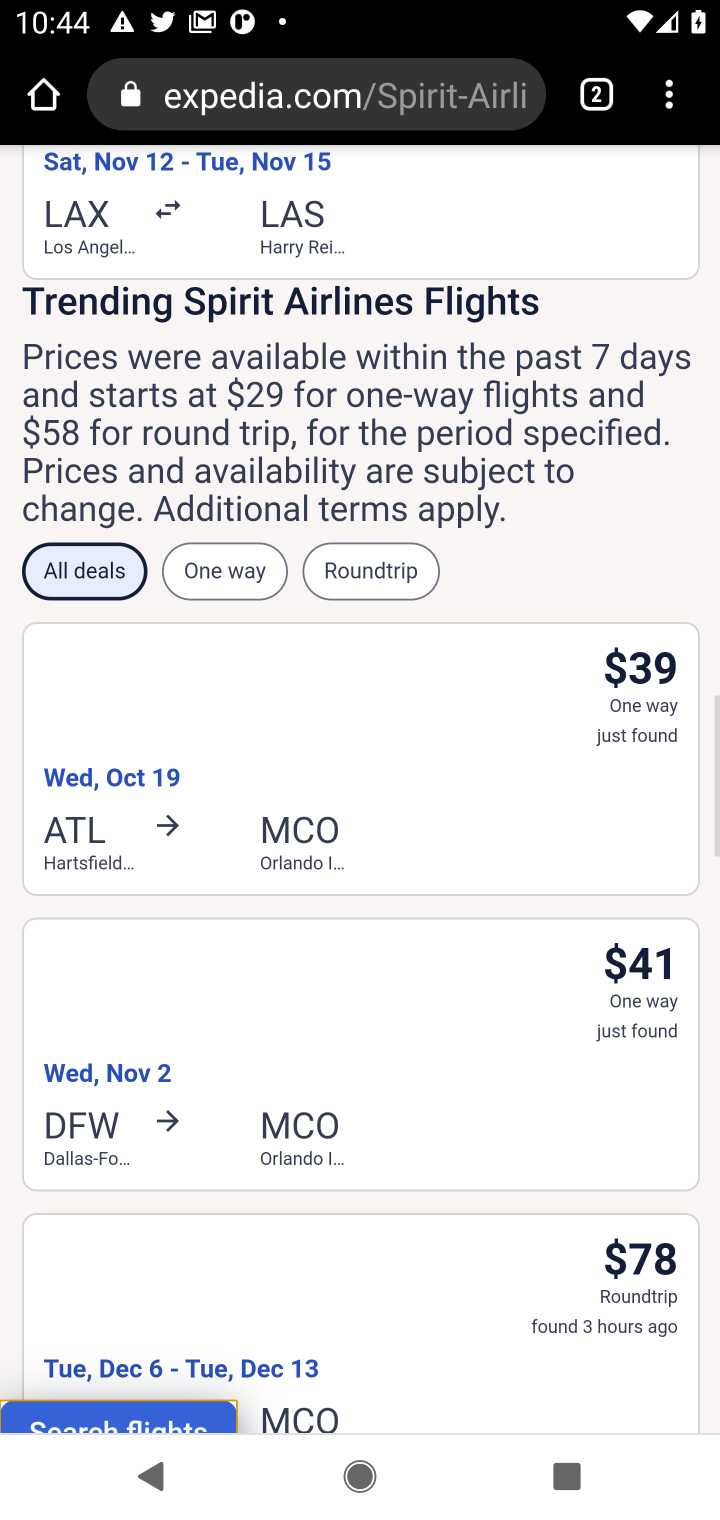
Step 27: drag from (348, 717) to (342, 1383)
Your task to perform on an android device: Search for flights from NYC to Sydney Image 28: 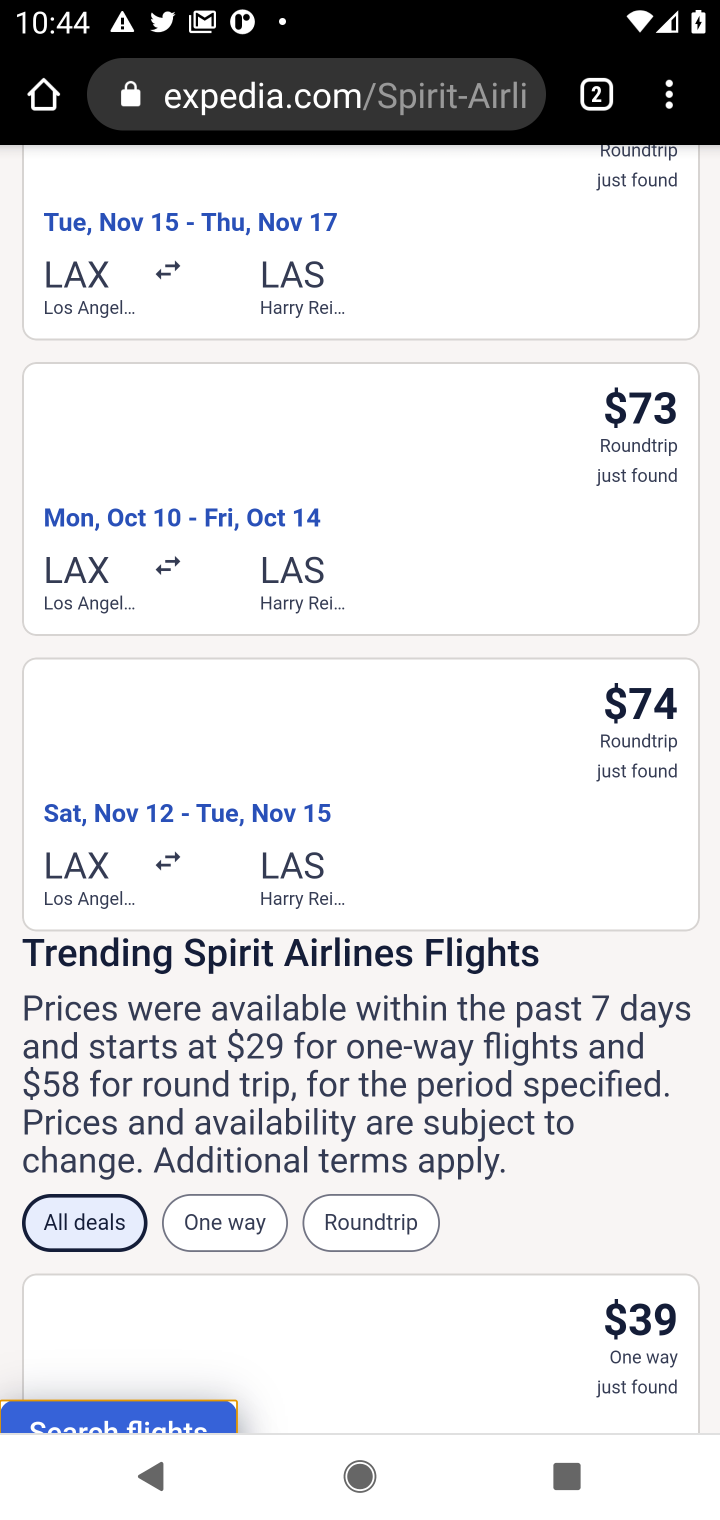
Step 28: click (351, 1224)
Your task to perform on an android device: Search for flights from NYC to Sydney Image 29: 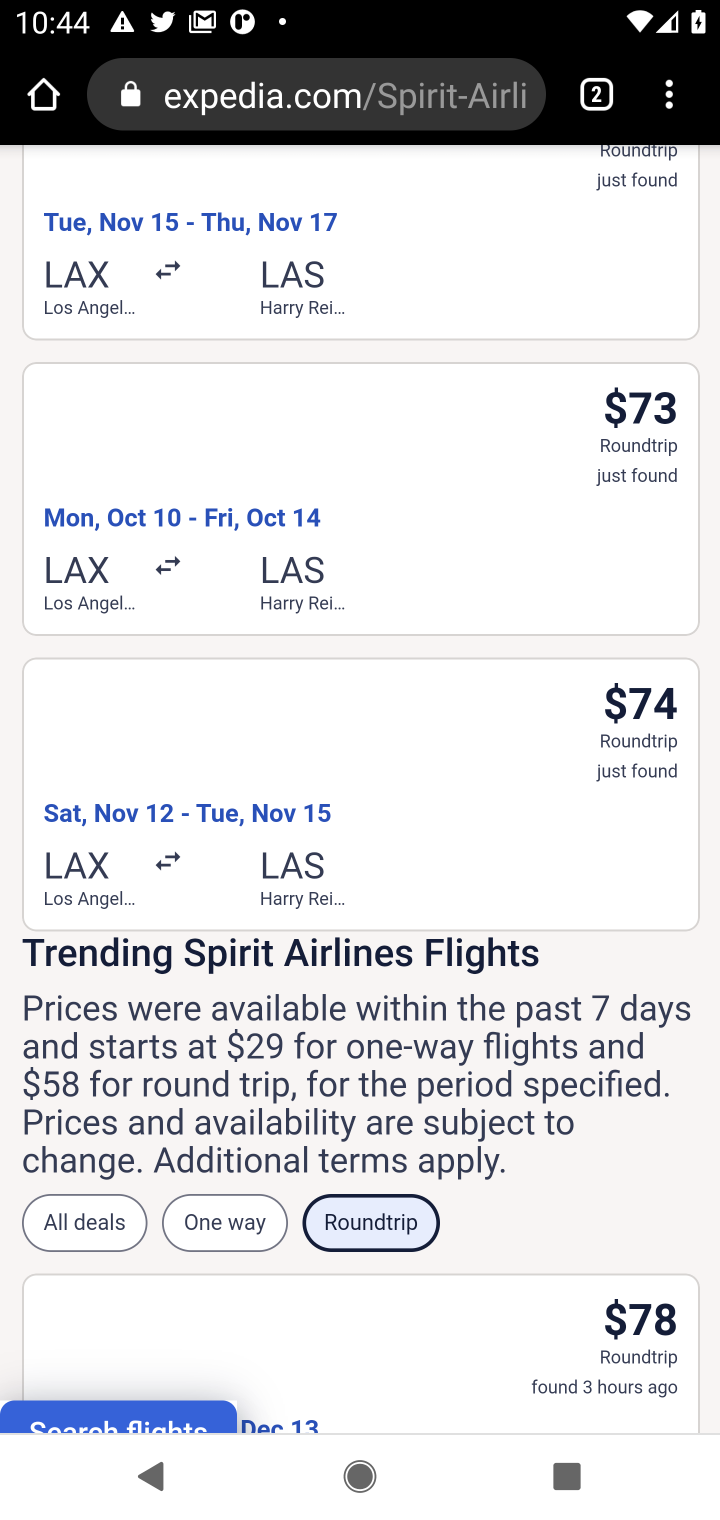
Step 29: drag from (419, 490) to (474, 1015)
Your task to perform on an android device: Search for flights from NYC to Sydney Image 30: 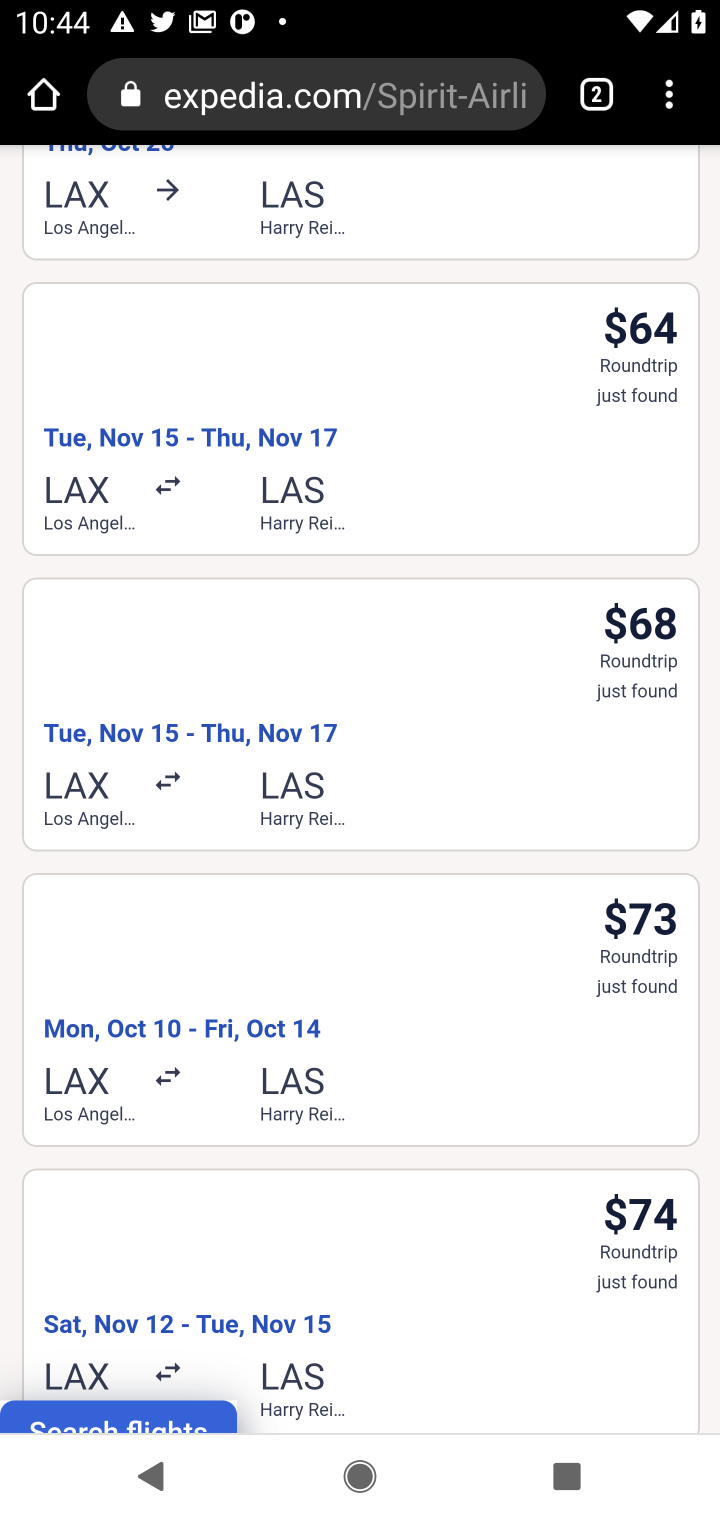
Step 30: drag from (463, 732) to (386, 1286)
Your task to perform on an android device: Search for flights from NYC to Sydney Image 31: 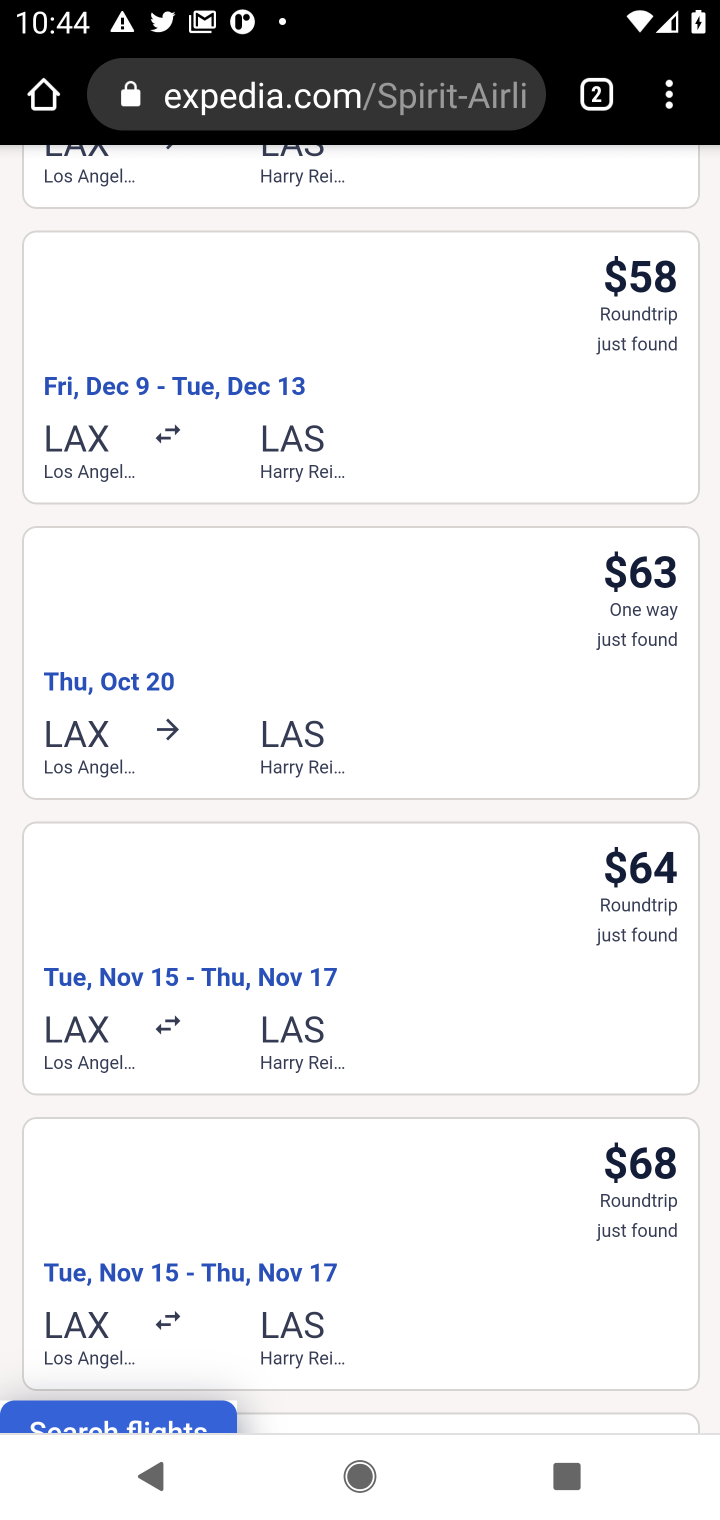
Step 31: drag from (424, 353) to (391, 1214)
Your task to perform on an android device: Search for flights from NYC to Sydney Image 32: 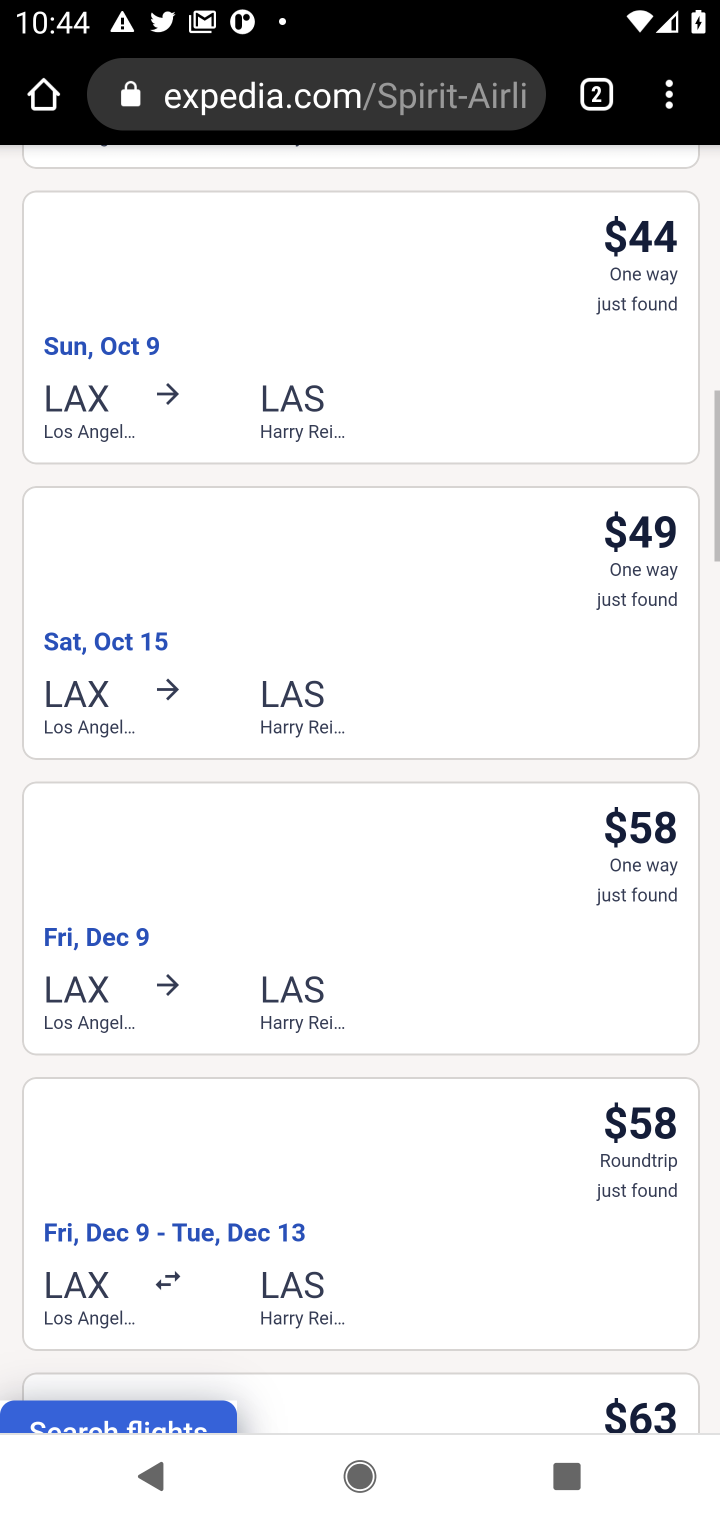
Step 32: drag from (503, 903) to (415, 1419)
Your task to perform on an android device: Search for flights from NYC to Sydney Image 33: 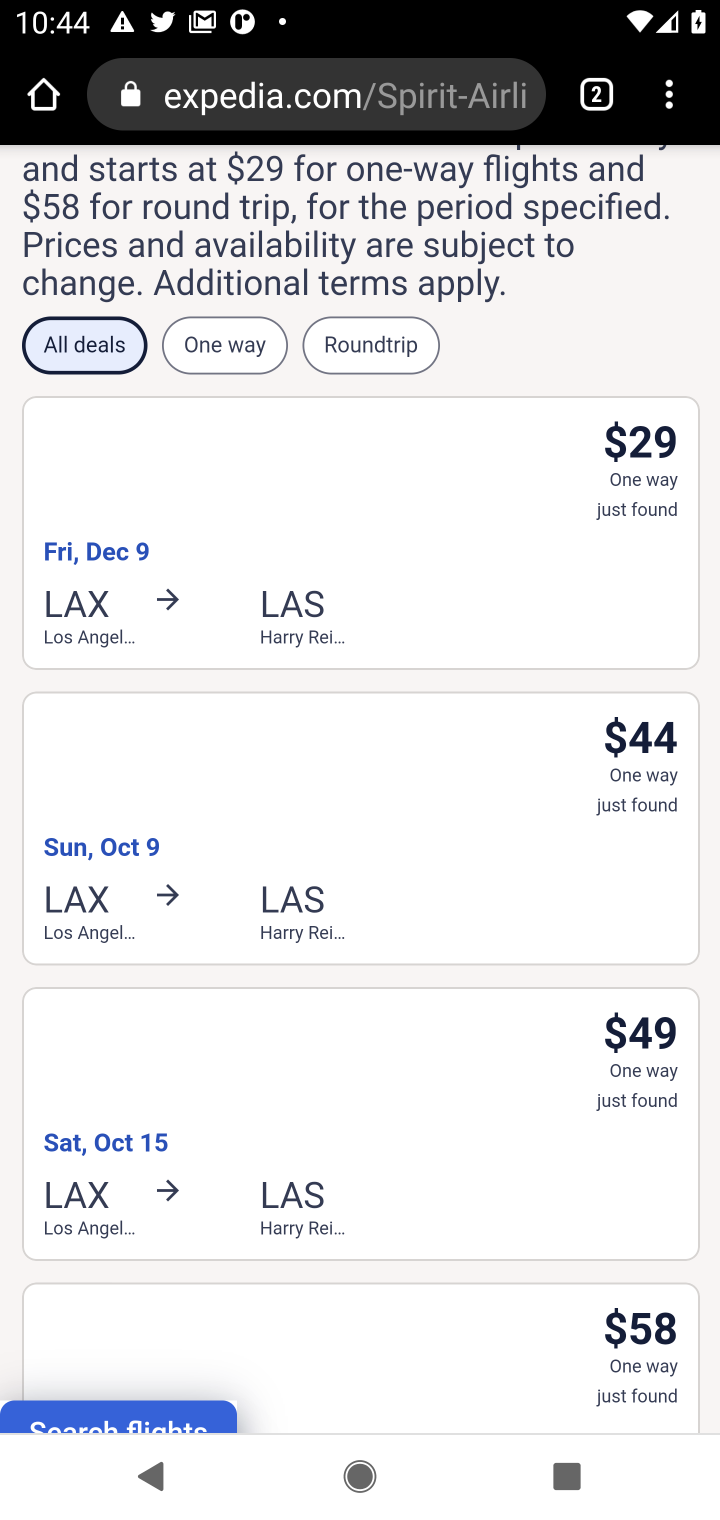
Step 33: click (67, 1422)
Your task to perform on an android device: Search for flights from NYC to Sydney Image 34: 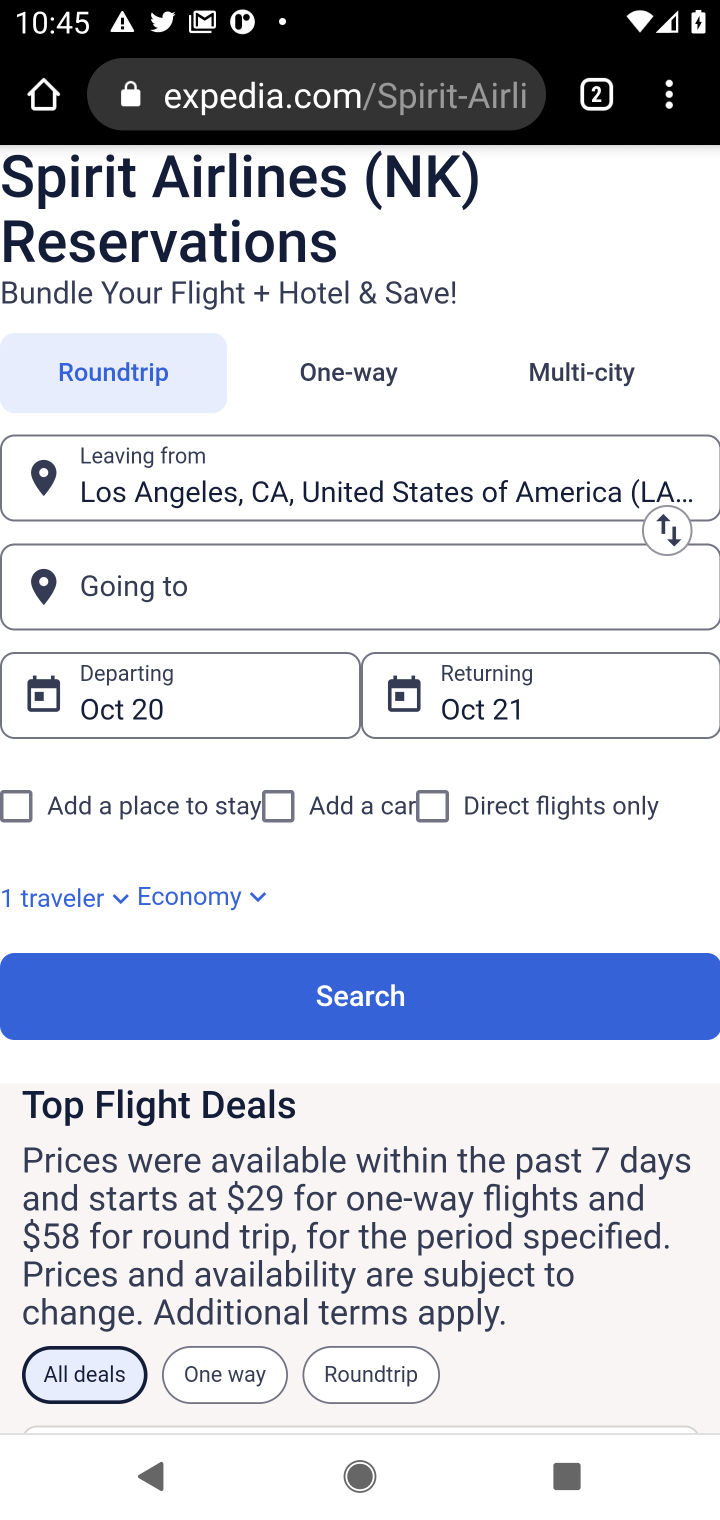
Step 34: click (40, 479)
Your task to perform on an android device: Search for flights from NYC to Sydney Image 35: 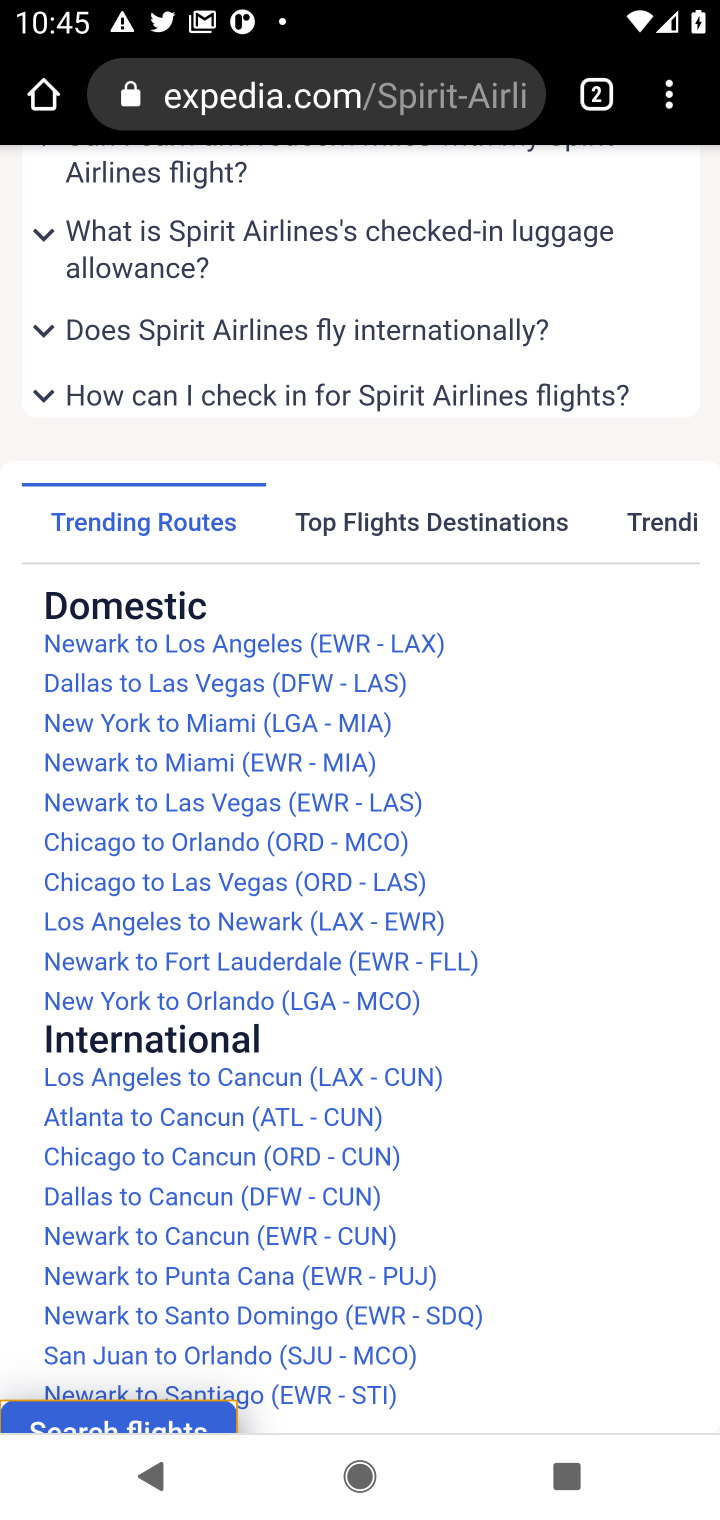
Step 35: click (138, 723)
Your task to perform on an android device: Search for flights from NYC to Sydney Image 36: 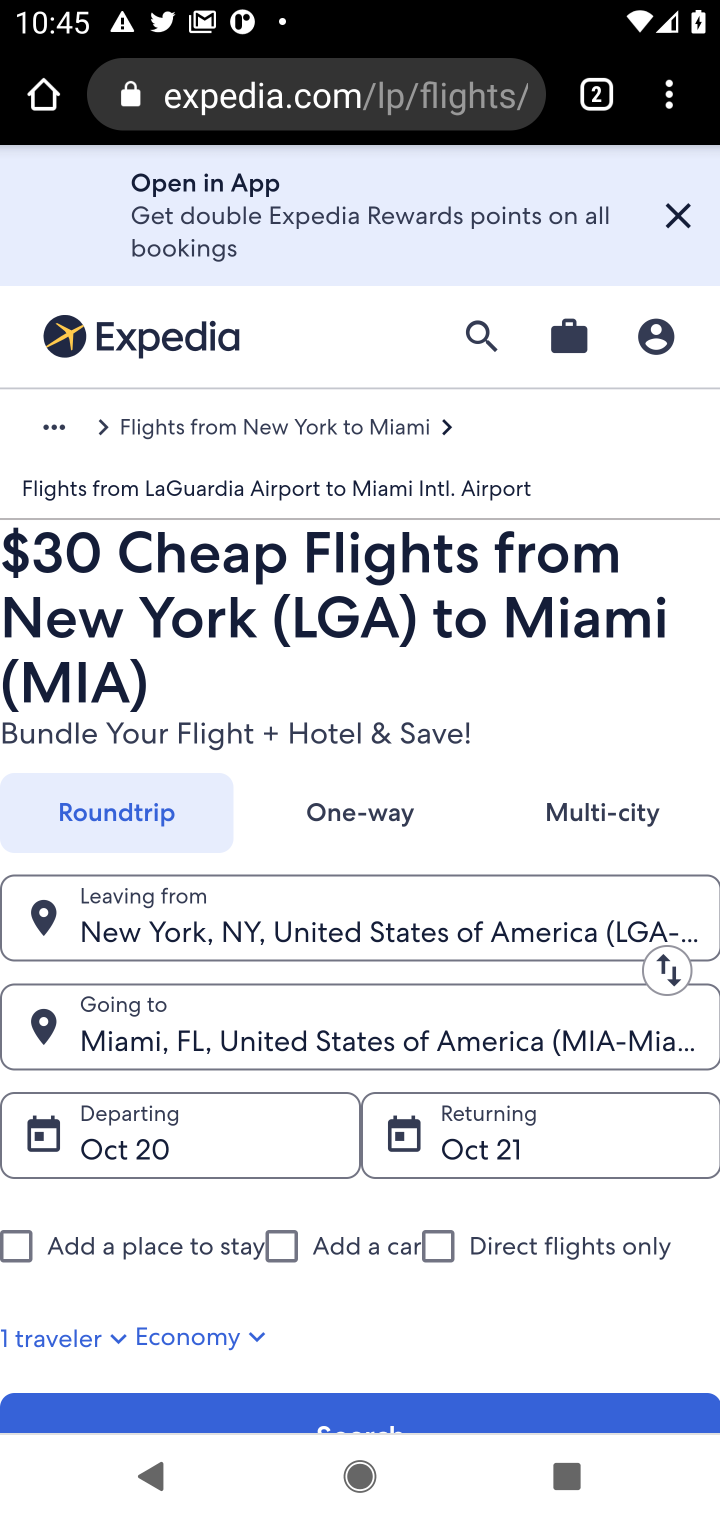
Step 36: click (159, 1045)
Your task to perform on an android device: Search for flights from NYC to Sydney Image 37: 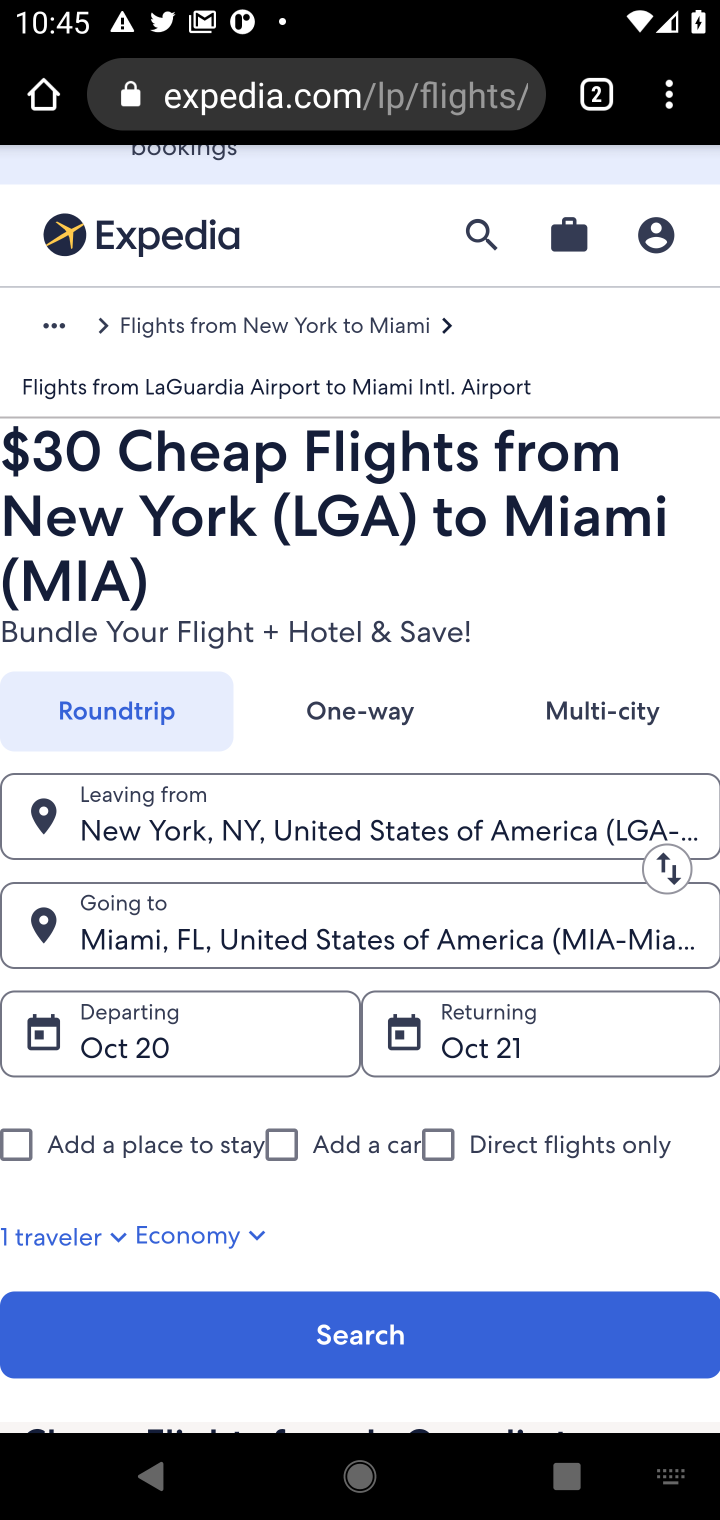
Step 37: click (46, 918)
Your task to perform on an android device: Search for flights from NYC to Sydney Image 38: 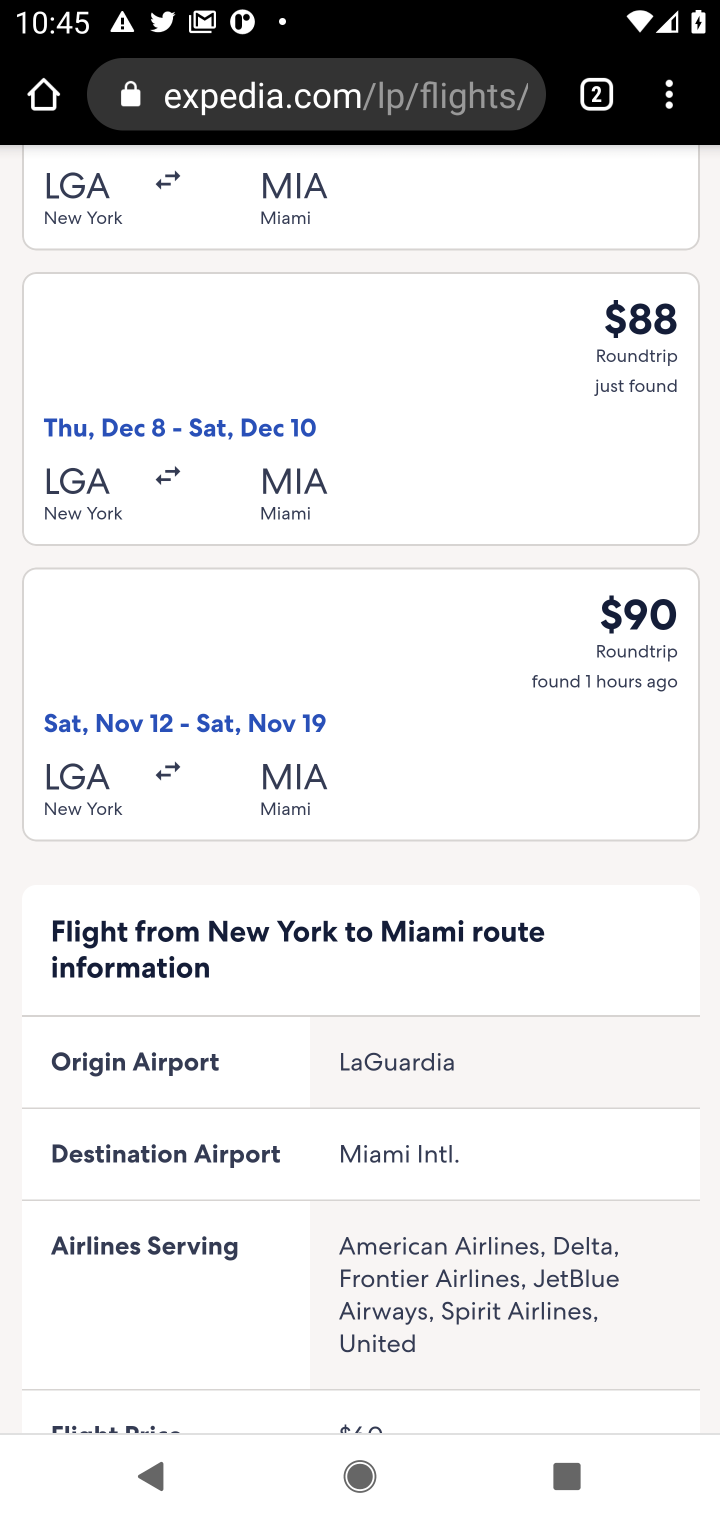
Step 38: task complete